Your task to perform on an android device: How much does a 2 bedroom apartment rent for in Houston? Image 0: 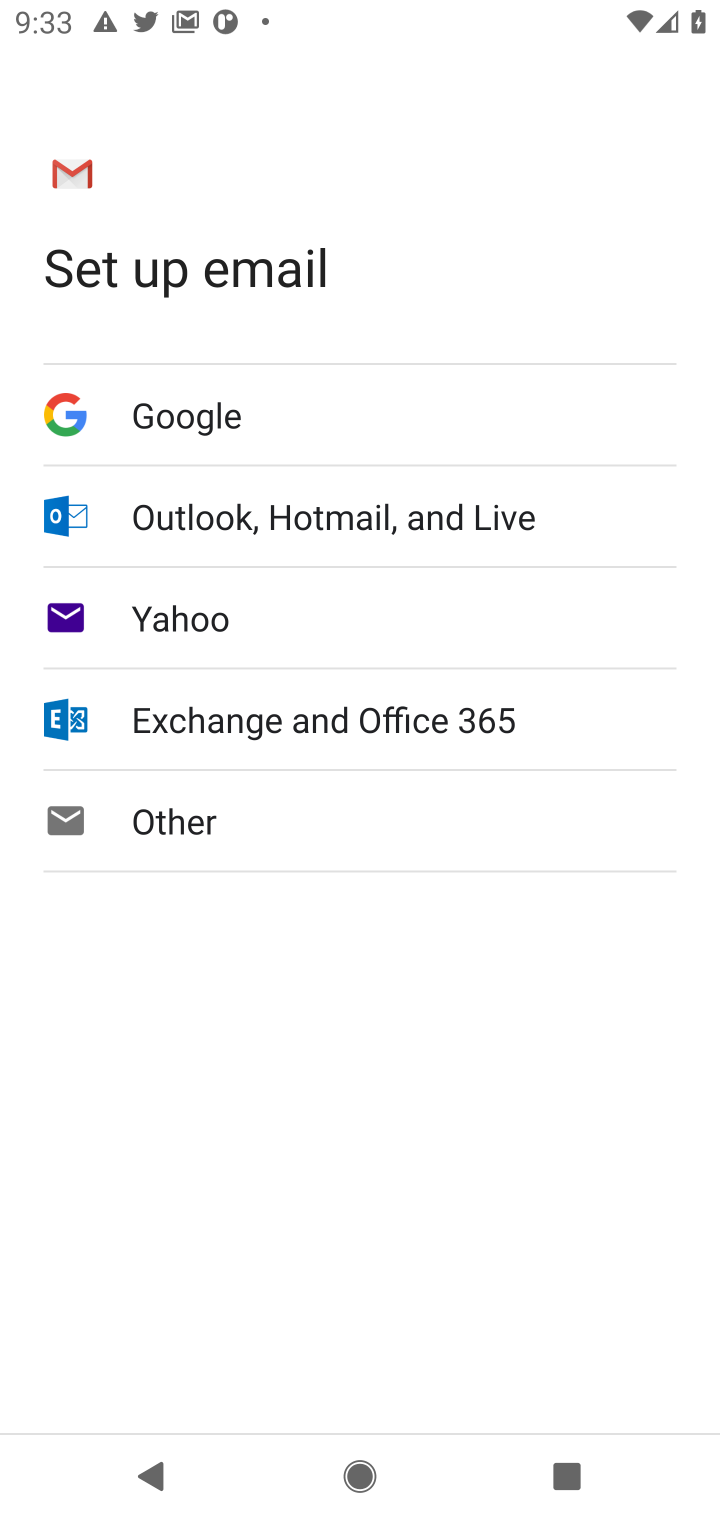
Step 0: press home button
Your task to perform on an android device: How much does a 2 bedroom apartment rent for in Houston? Image 1: 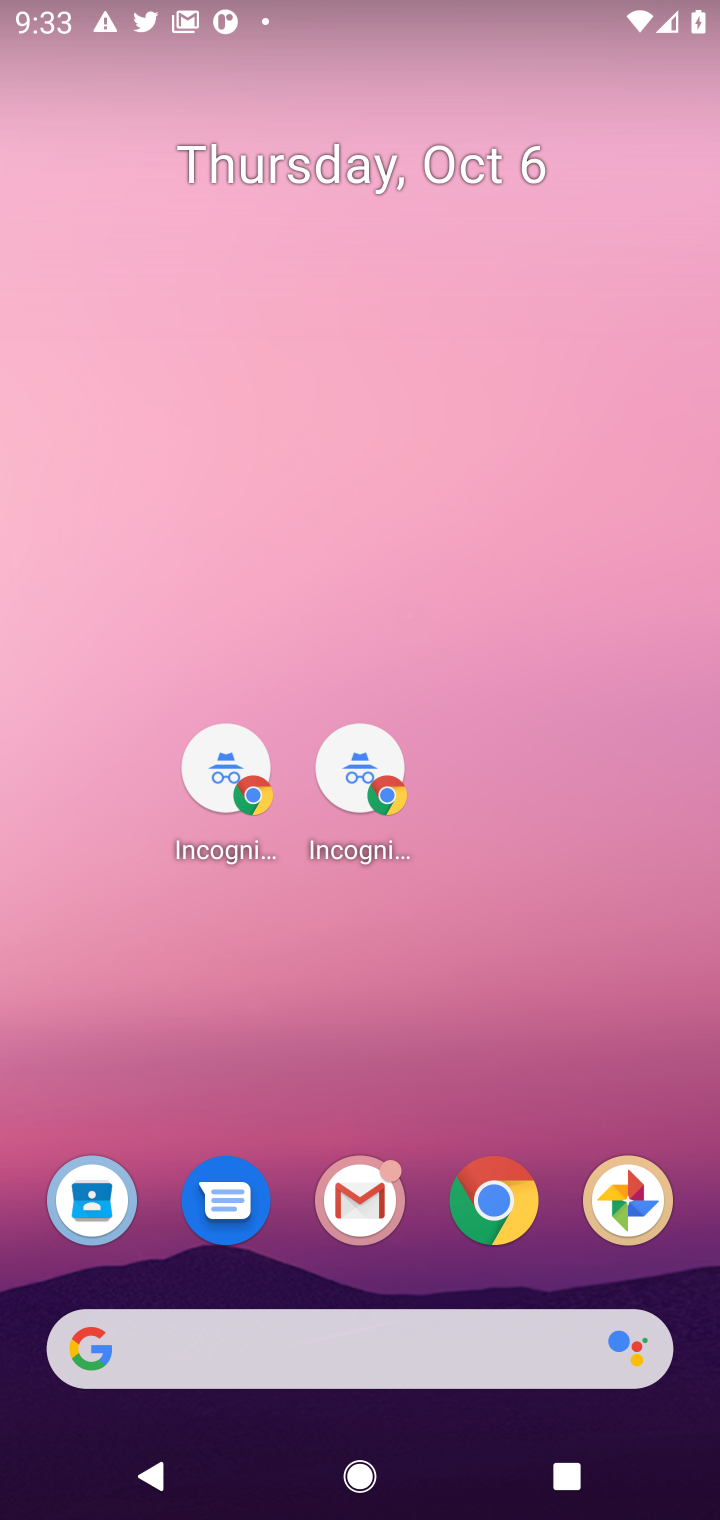
Step 1: press home button
Your task to perform on an android device: How much does a 2 bedroom apartment rent for in Houston? Image 2: 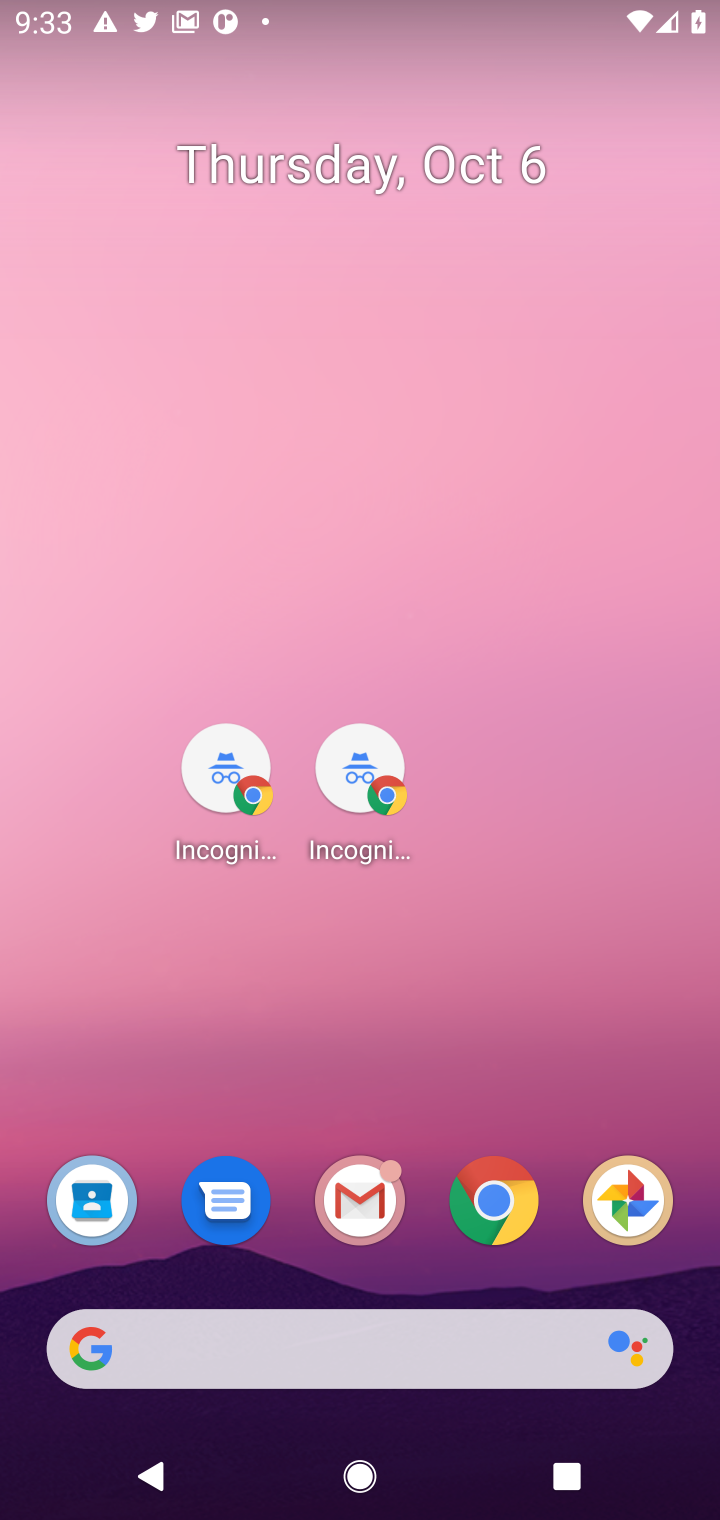
Step 2: press back button
Your task to perform on an android device: How much does a 2 bedroom apartment rent for in Houston? Image 3: 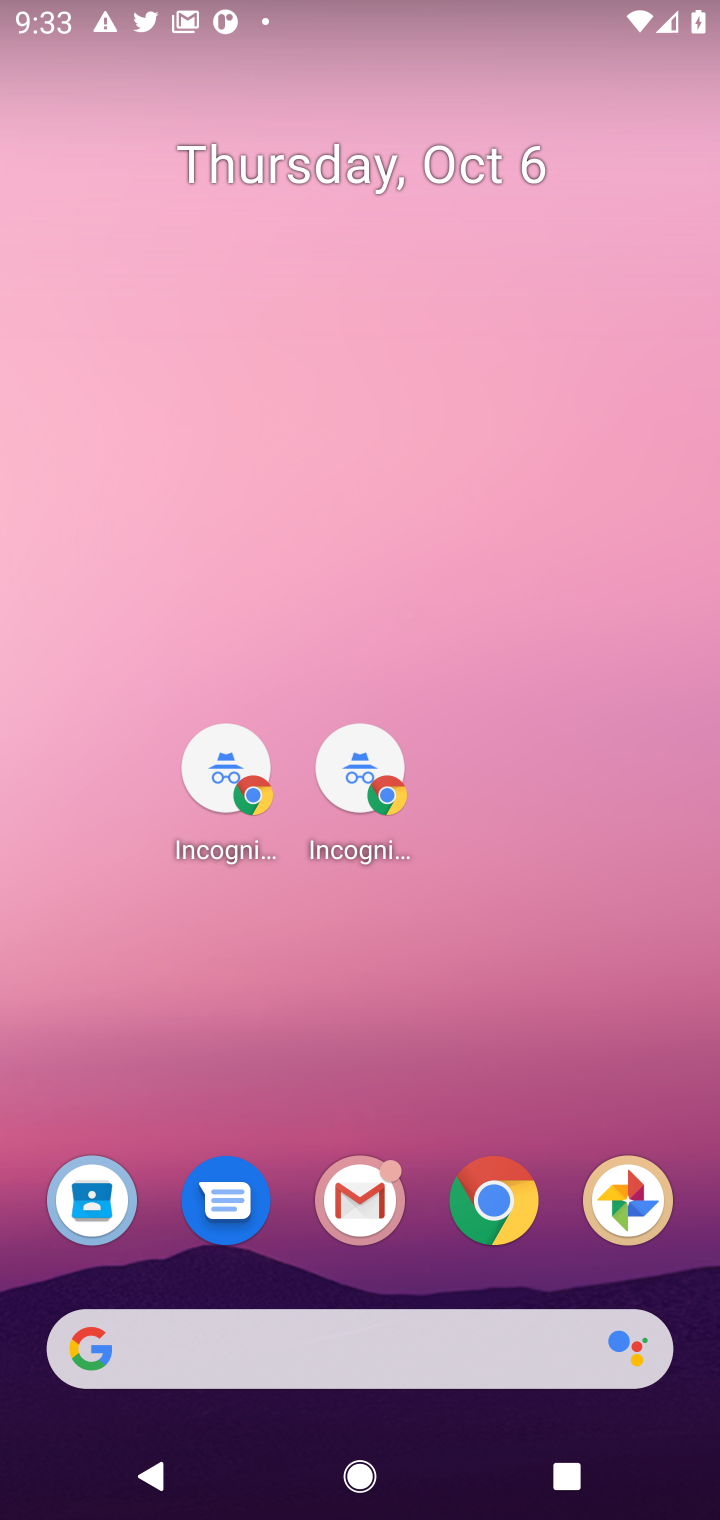
Step 3: press back button
Your task to perform on an android device: How much does a 2 bedroom apartment rent for in Houston? Image 4: 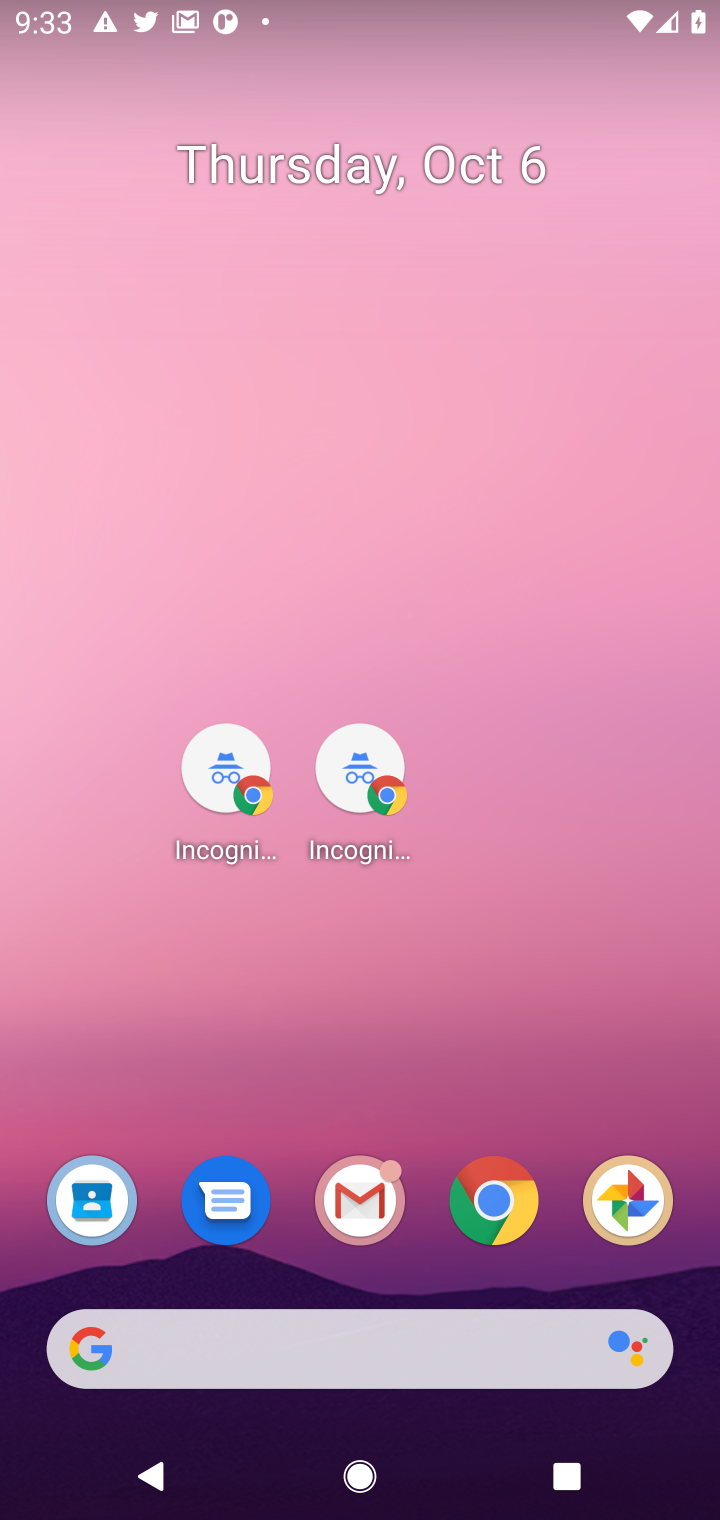
Step 4: press home button
Your task to perform on an android device: How much does a 2 bedroom apartment rent for in Houston? Image 5: 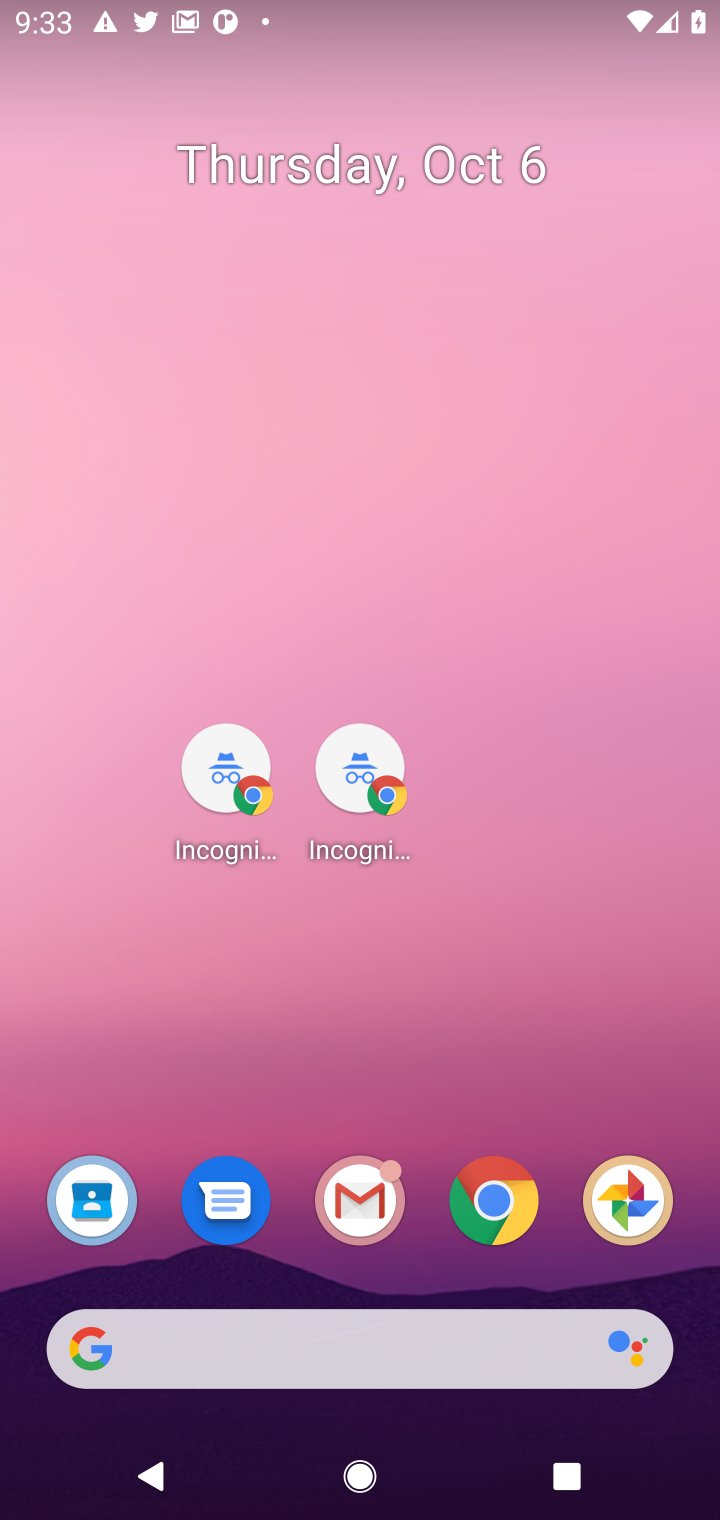
Step 5: press home button
Your task to perform on an android device: How much does a 2 bedroom apartment rent for in Houston? Image 6: 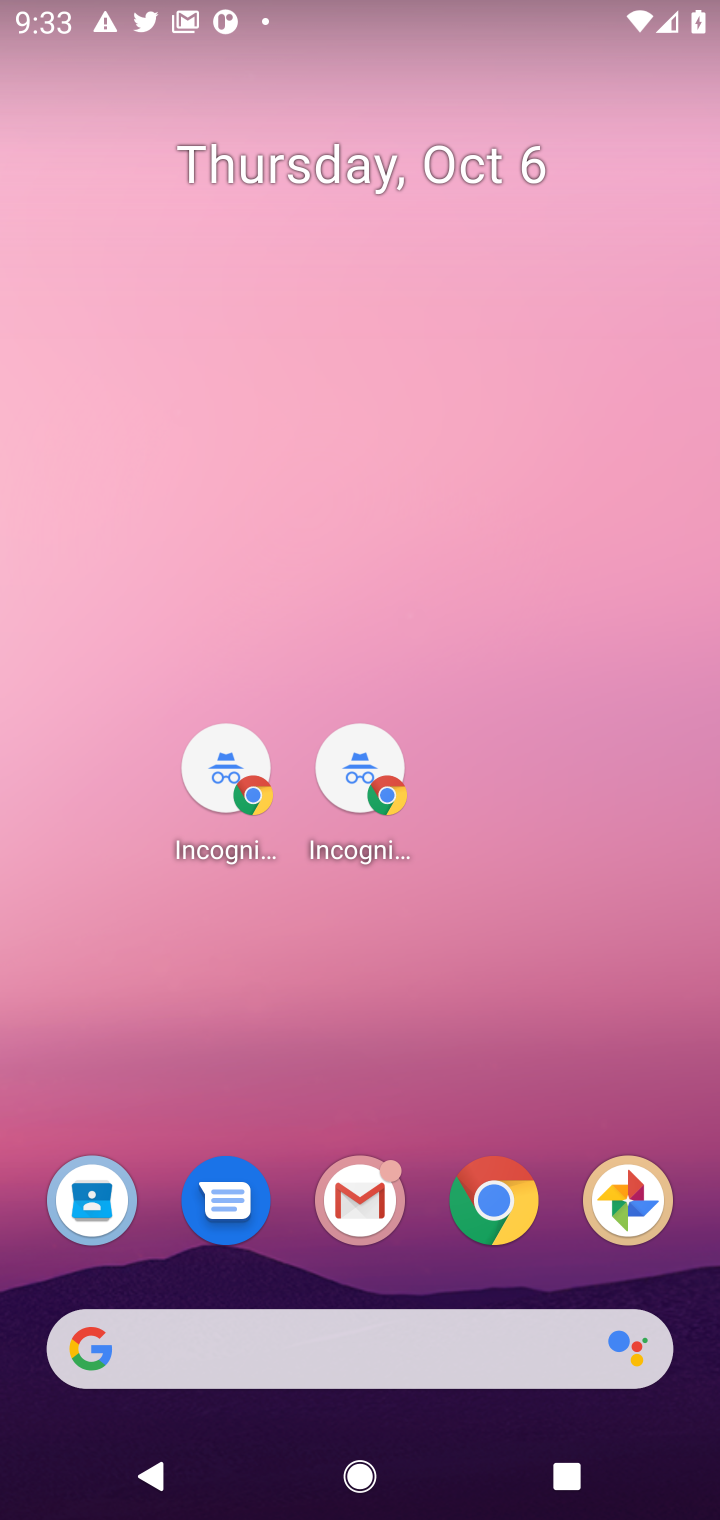
Step 6: click (486, 1190)
Your task to perform on an android device: How much does a 2 bedroom apartment rent for in Houston? Image 7: 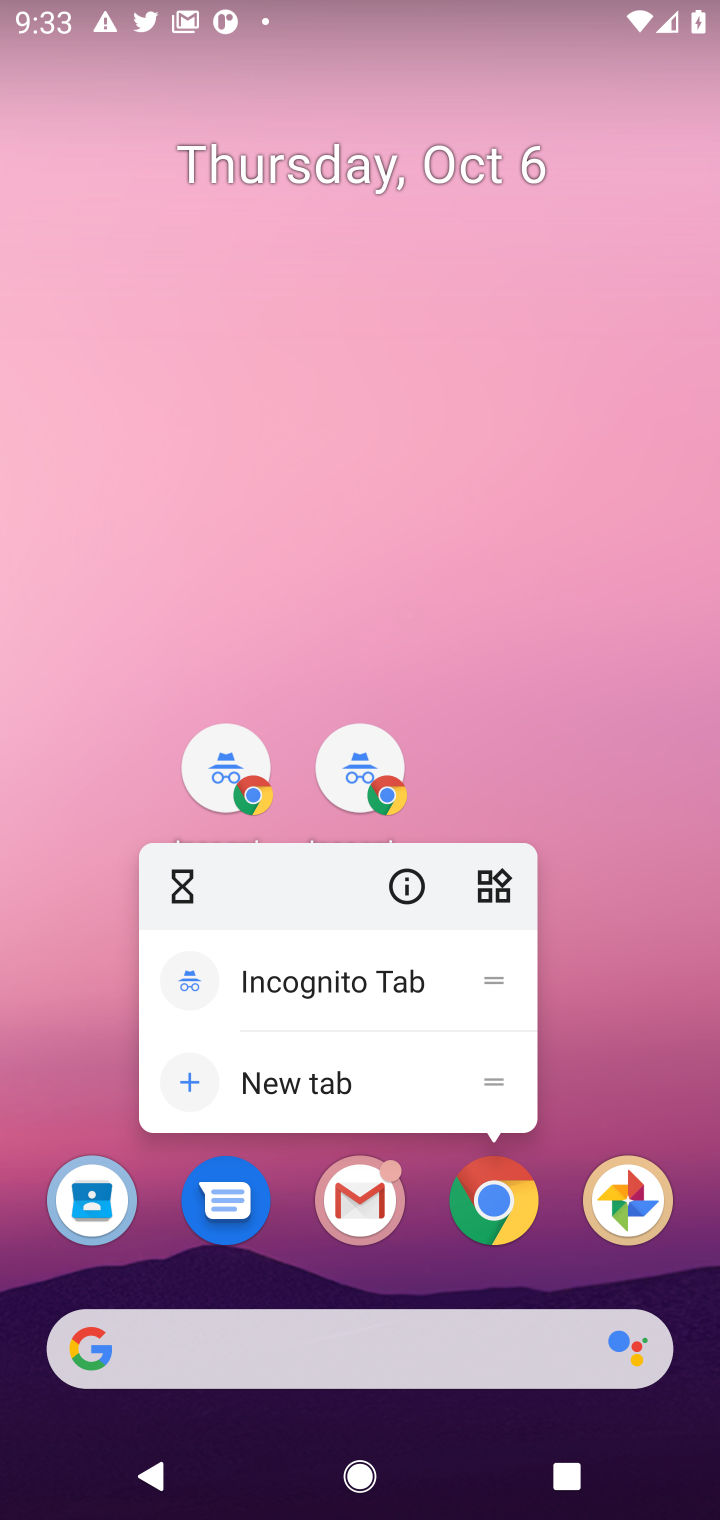
Step 7: press back button
Your task to perform on an android device: How much does a 2 bedroom apartment rent for in Houston? Image 8: 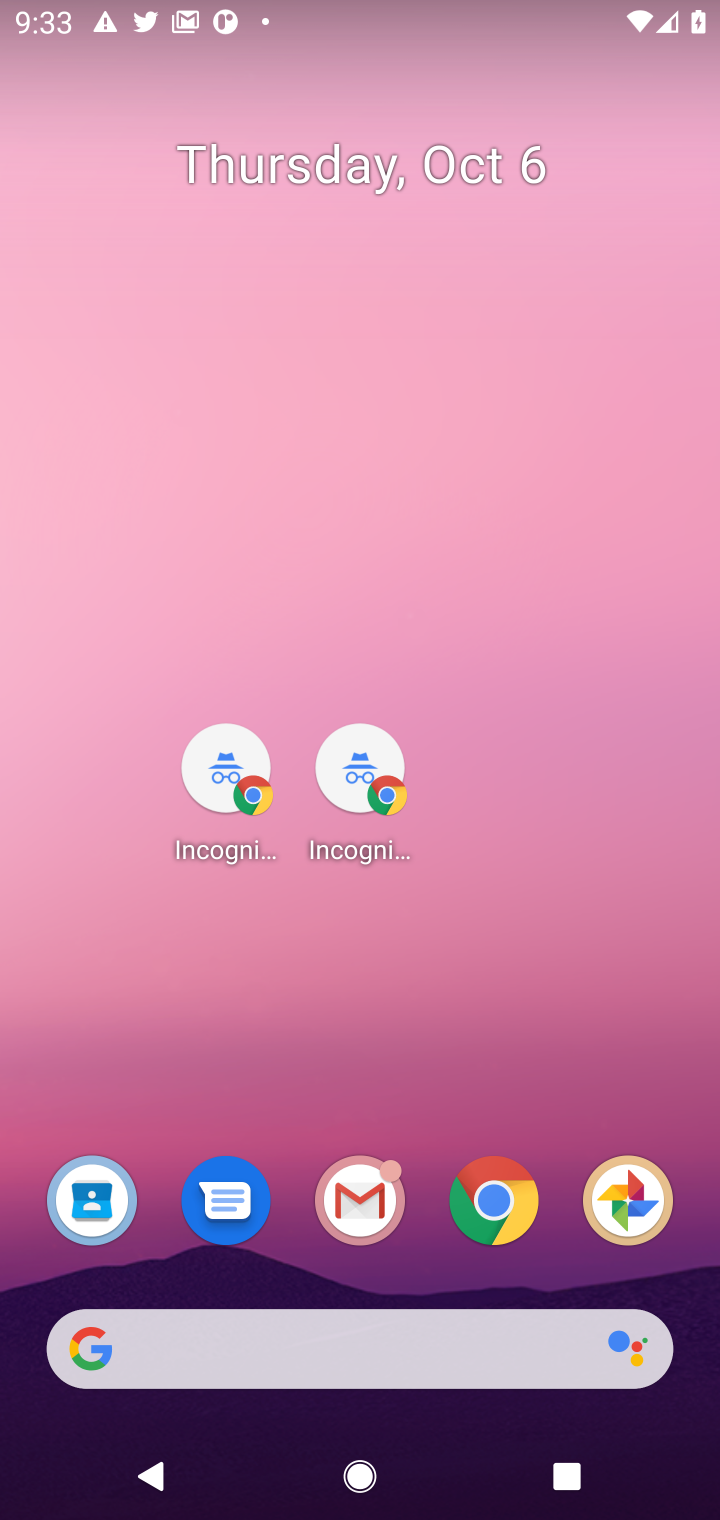
Step 8: press home button
Your task to perform on an android device: How much does a 2 bedroom apartment rent for in Houston? Image 9: 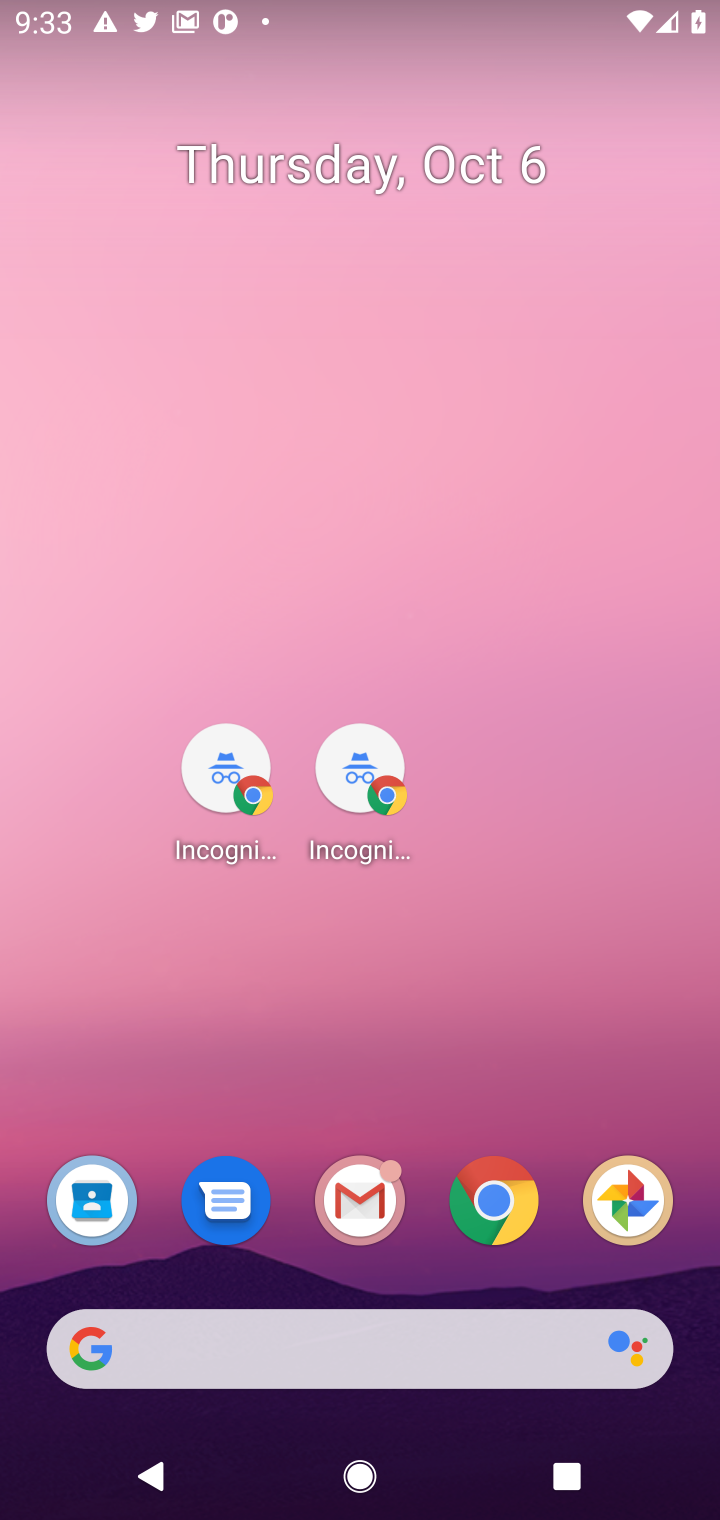
Step 9: press home button
Your task to perform on an android device: How much does a 2 bedroom apartment rent for in Houston? Image 10: 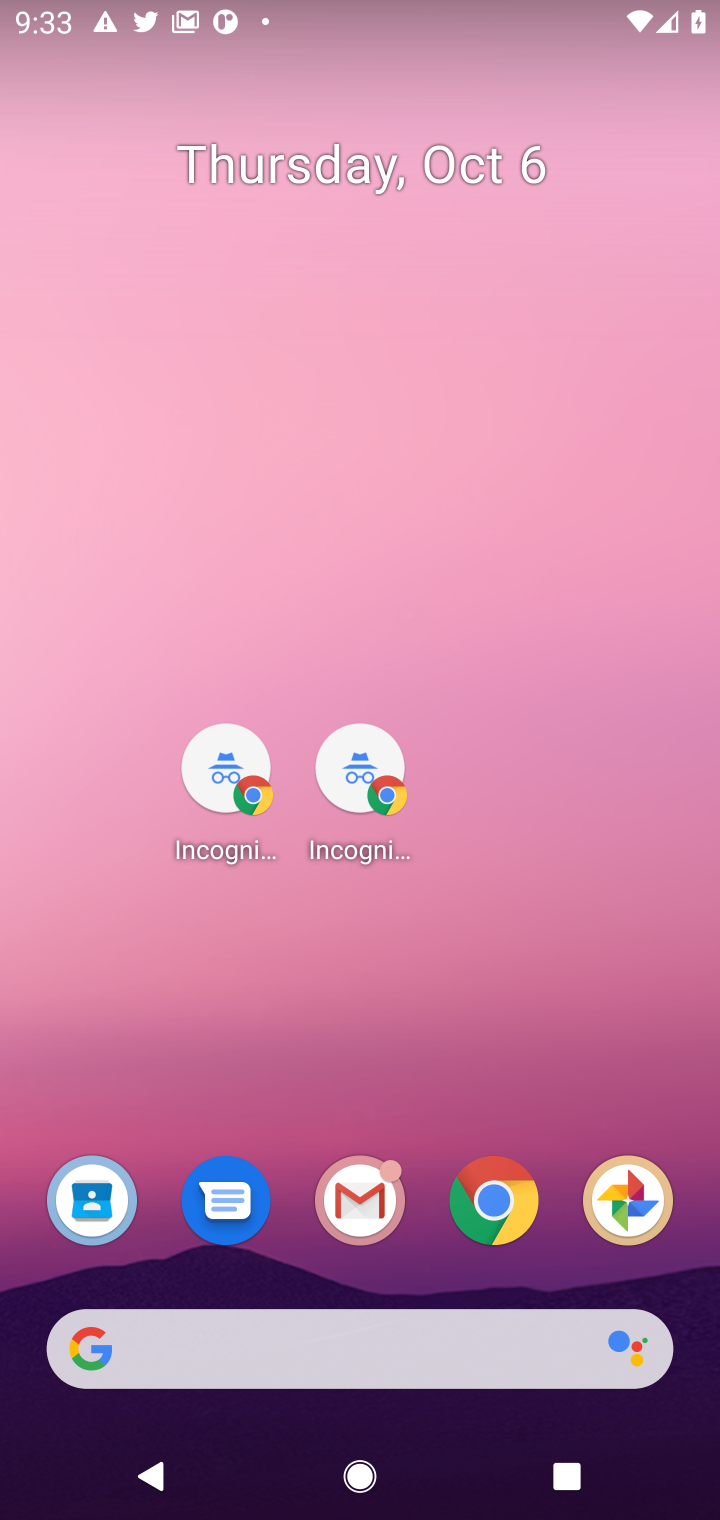
Step 10: click (501, 1193)
Your task to perform on an android device: How much does a 2 bedroom apartment rent for in Houston? Image 11: 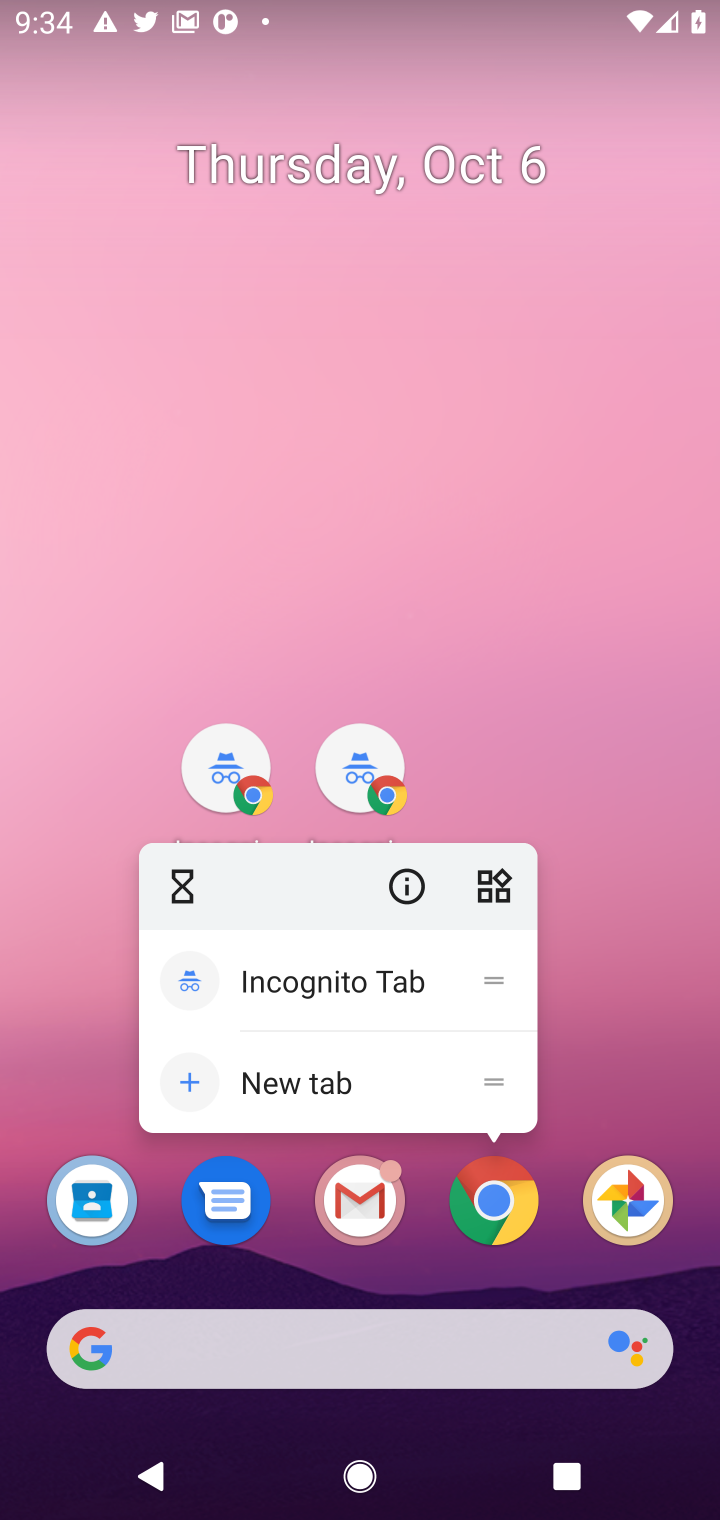
Step 11: press back button
Your task to perform on an android device: How much does a 2 bedroom apartment rent for in Houston? Image 12: 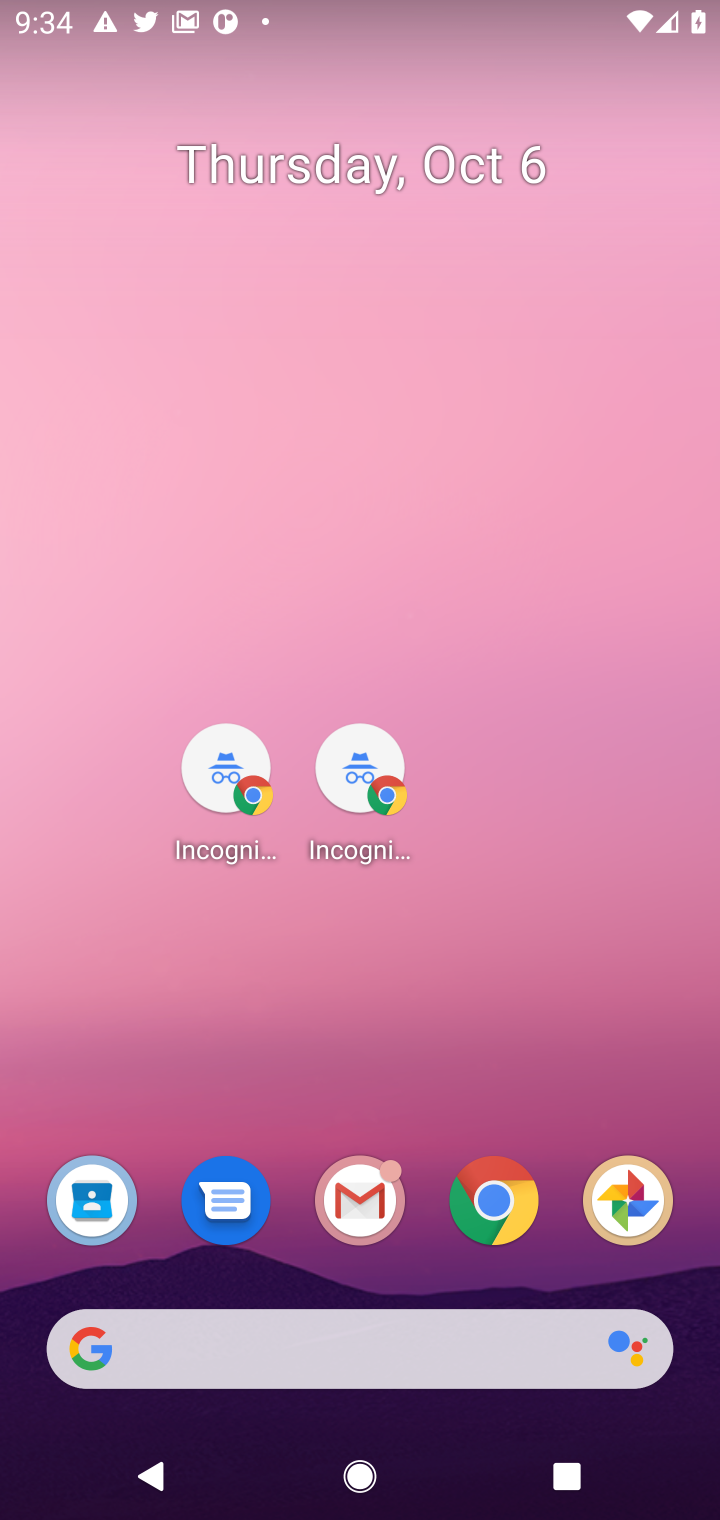
Step 12: press home button
Your task to perform on an android device: How much does a 2 bedroom apartment rent for in Houston? Image 13: 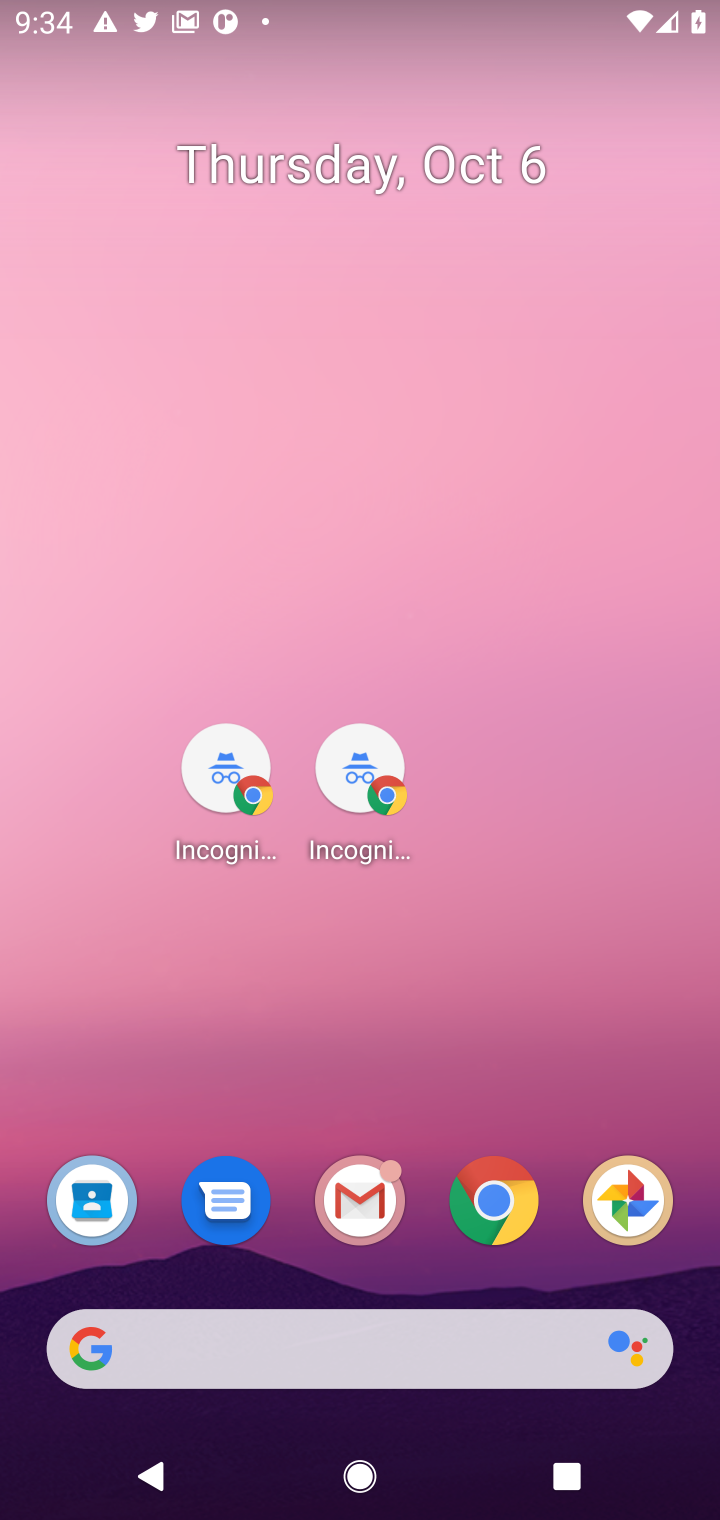
Step 13: click (500, 1183)
Your task to perform on an android device: How much does a 2 bedroom apartment rent for in Houston? Image 14: 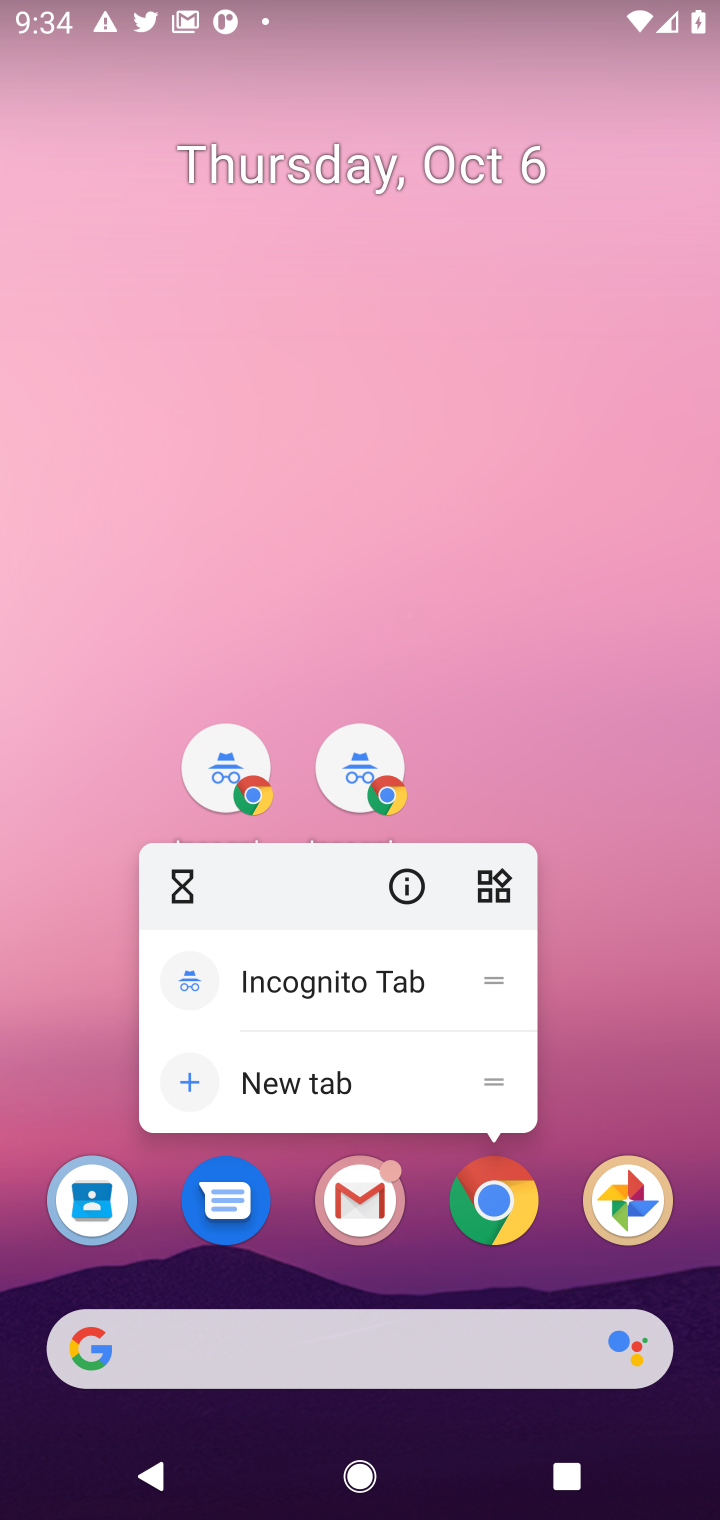
Step 14: press back button
Your task to perform on an android device: How much does a 2 bedroom apartment rent for in Houston? Image 15: 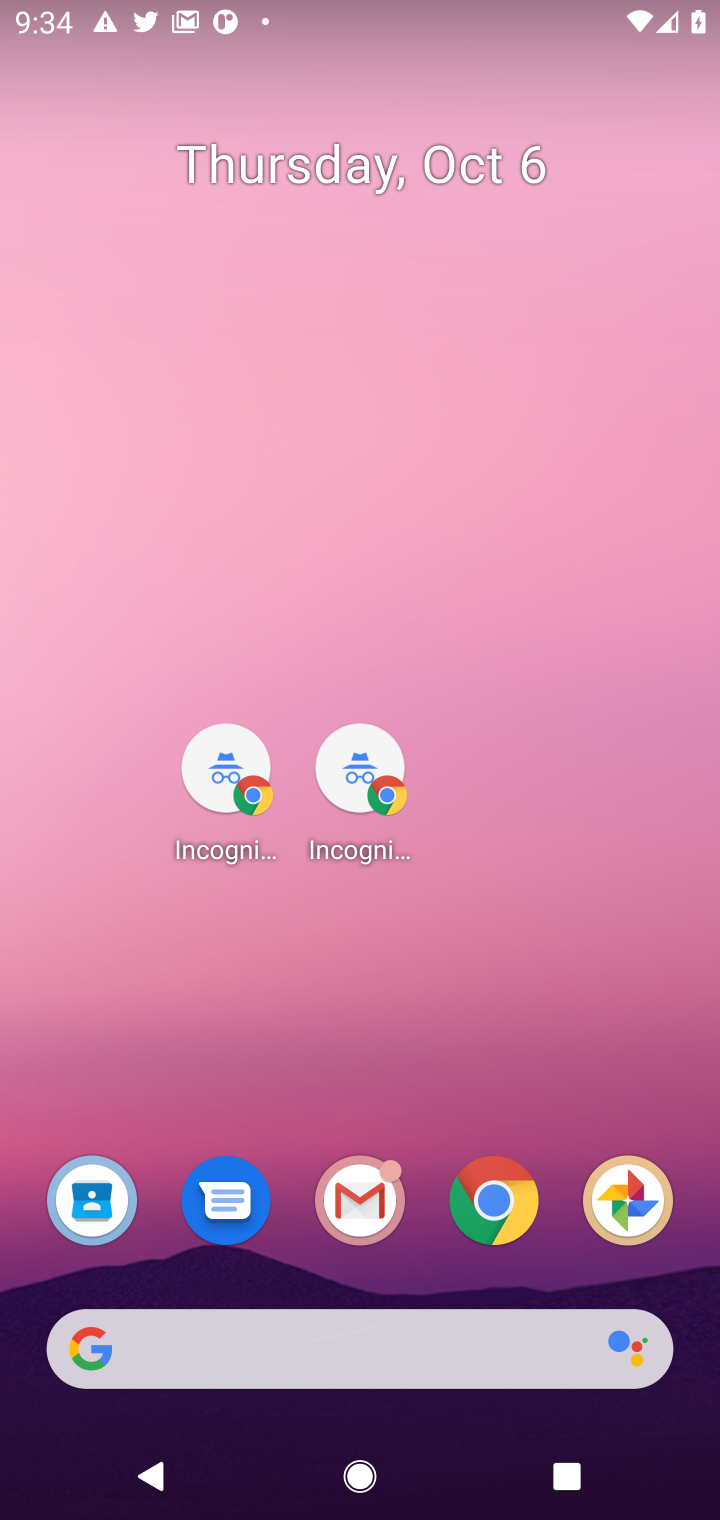
Step 15: press back button
Your task to perform on an android device: How much does a 2 bedroom apartment rent for in Houston? Image 16: 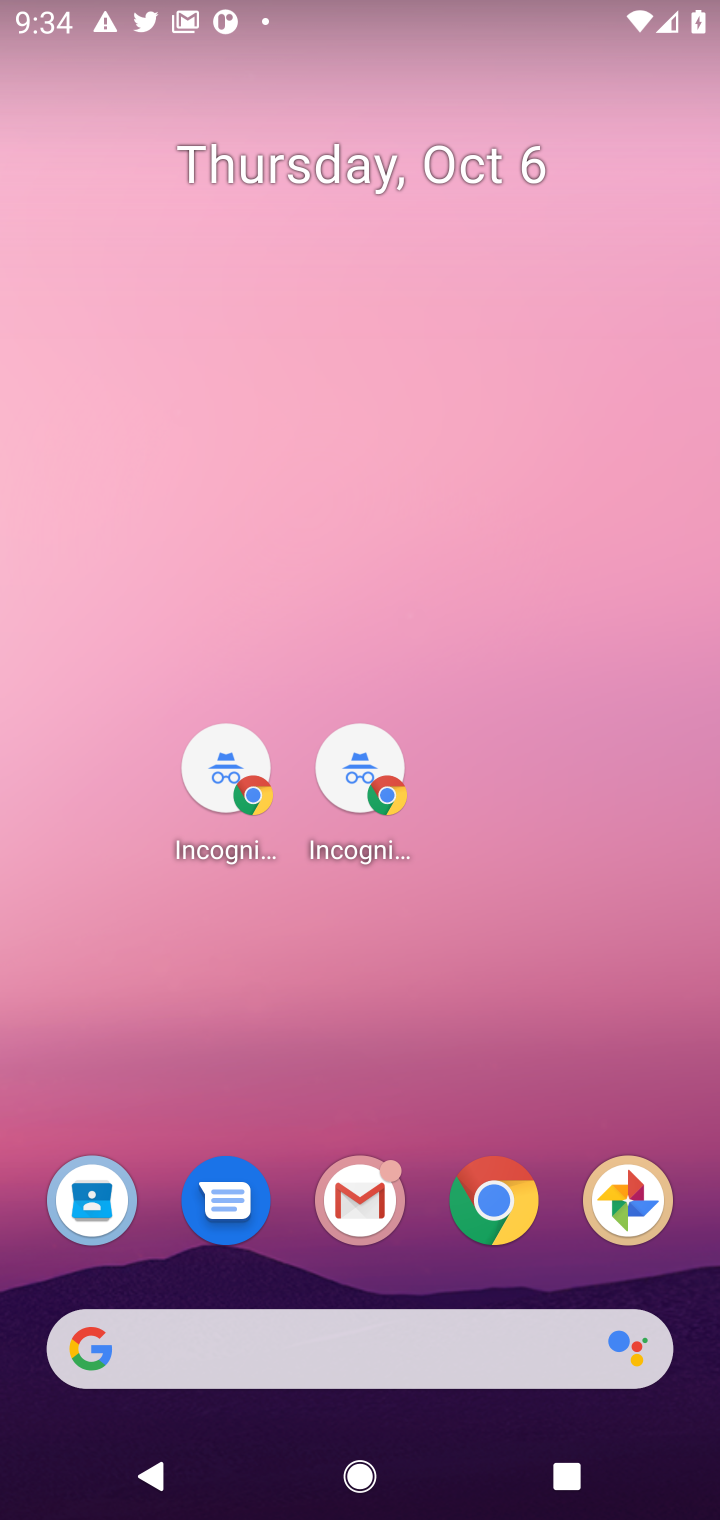
Step 16: press home button
Your task to perform on an android device: How much does a 2 bedroom apartment rent for in Houston? Image 17: 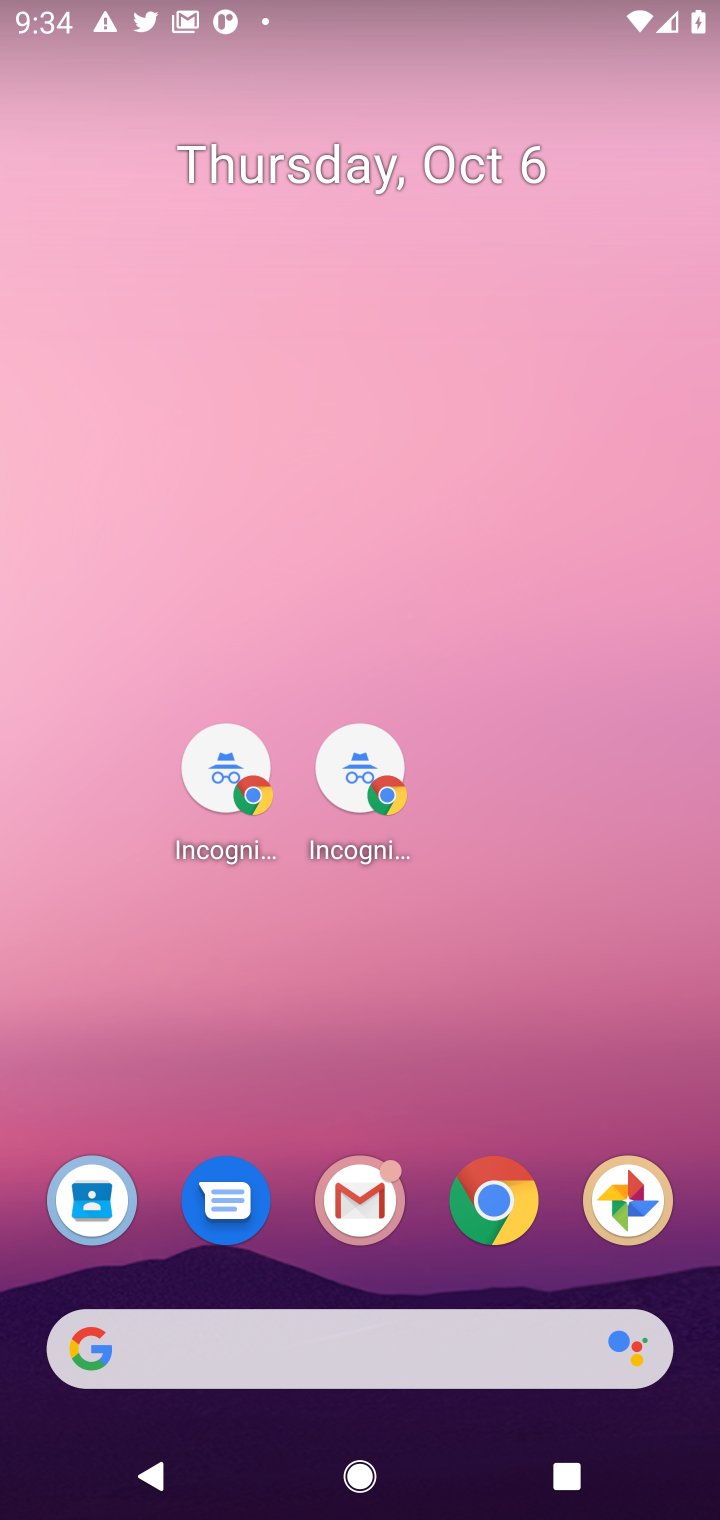
Step 17: click (484, 1178)
Your task to perform on an android device: How much does a 2 bedroom apartment rent for in Houston? Image 18: 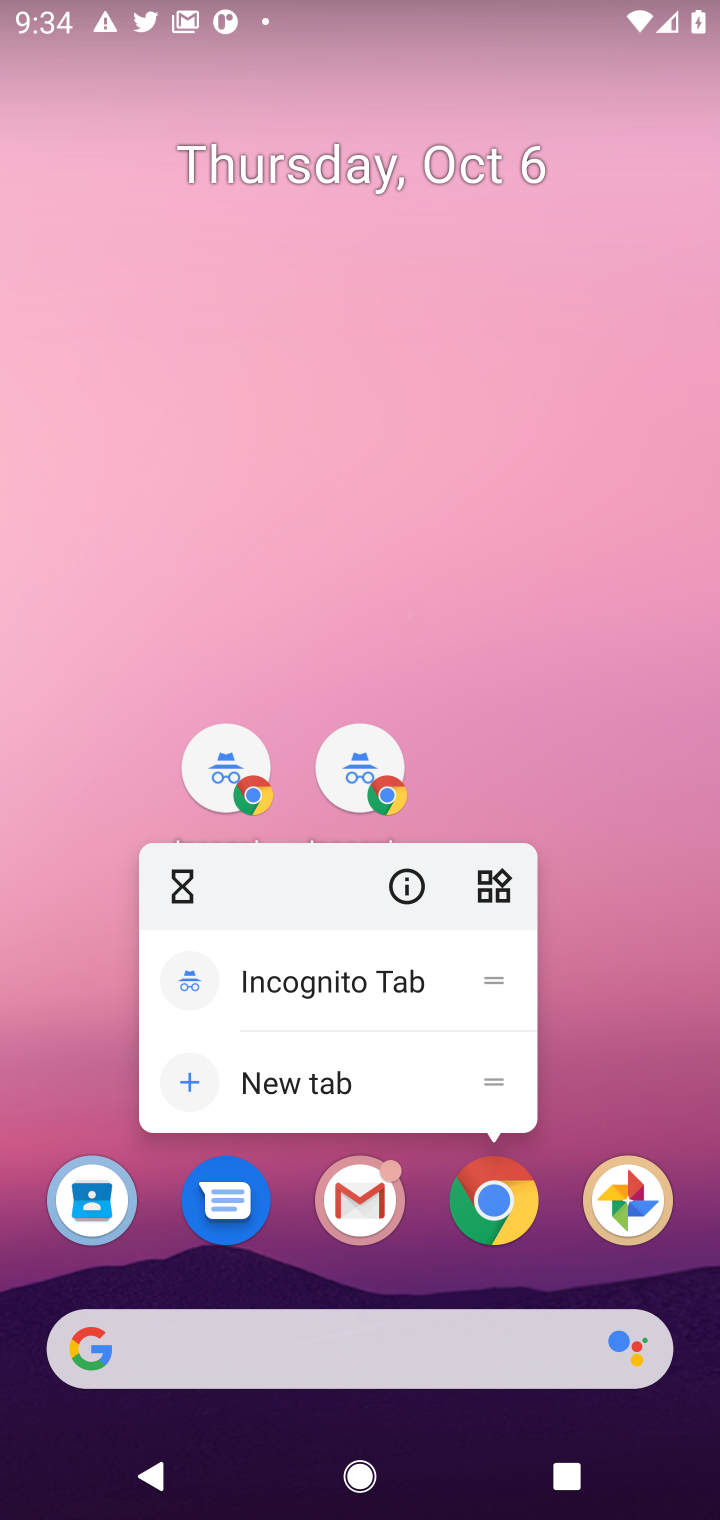
Step 18: press back button
Your task to perform on an android device: How much does a 2 bedroom apartment rent for in Houston? Image 19: 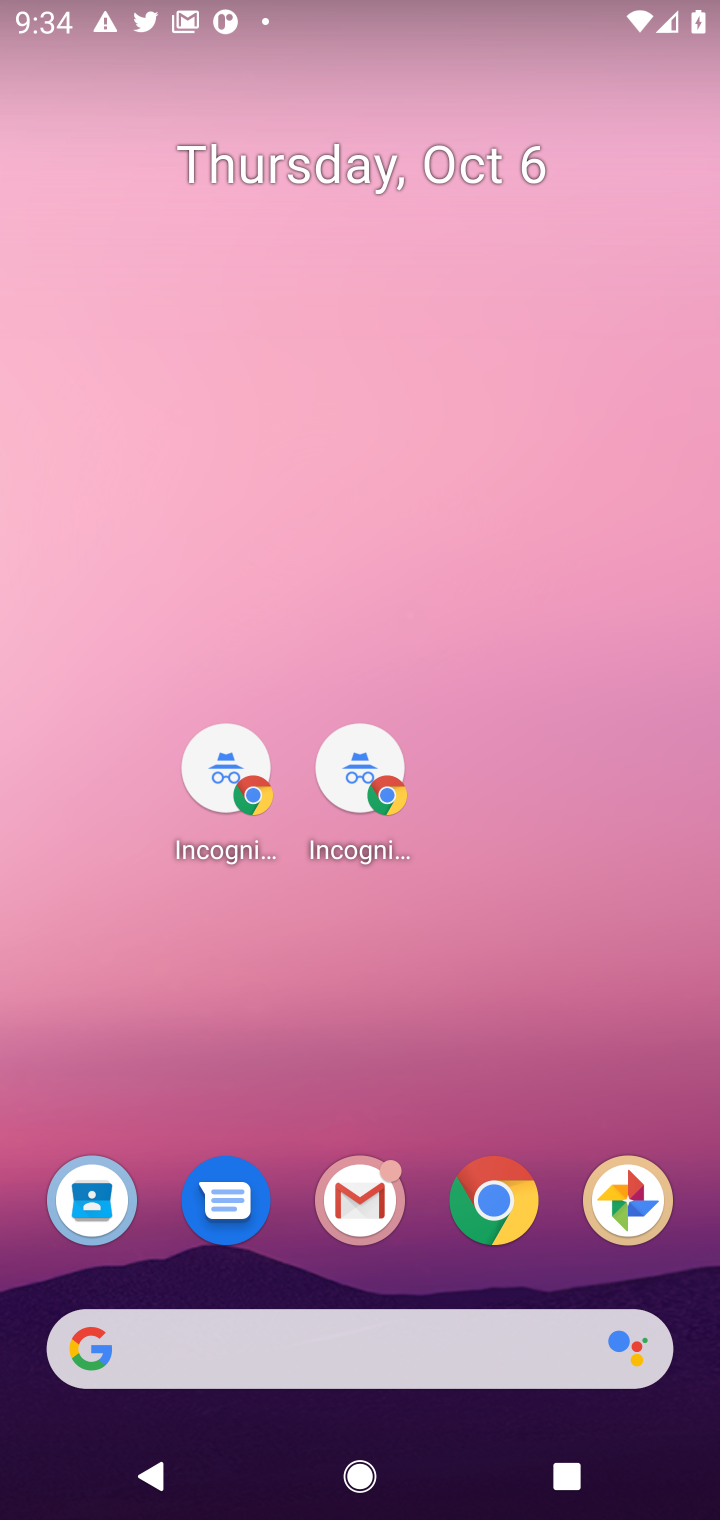
Step 19: click (482, 1190)
Your task to perform on an android device: How much does a 2 bedroom apartment rent for in Houston? Image 20: 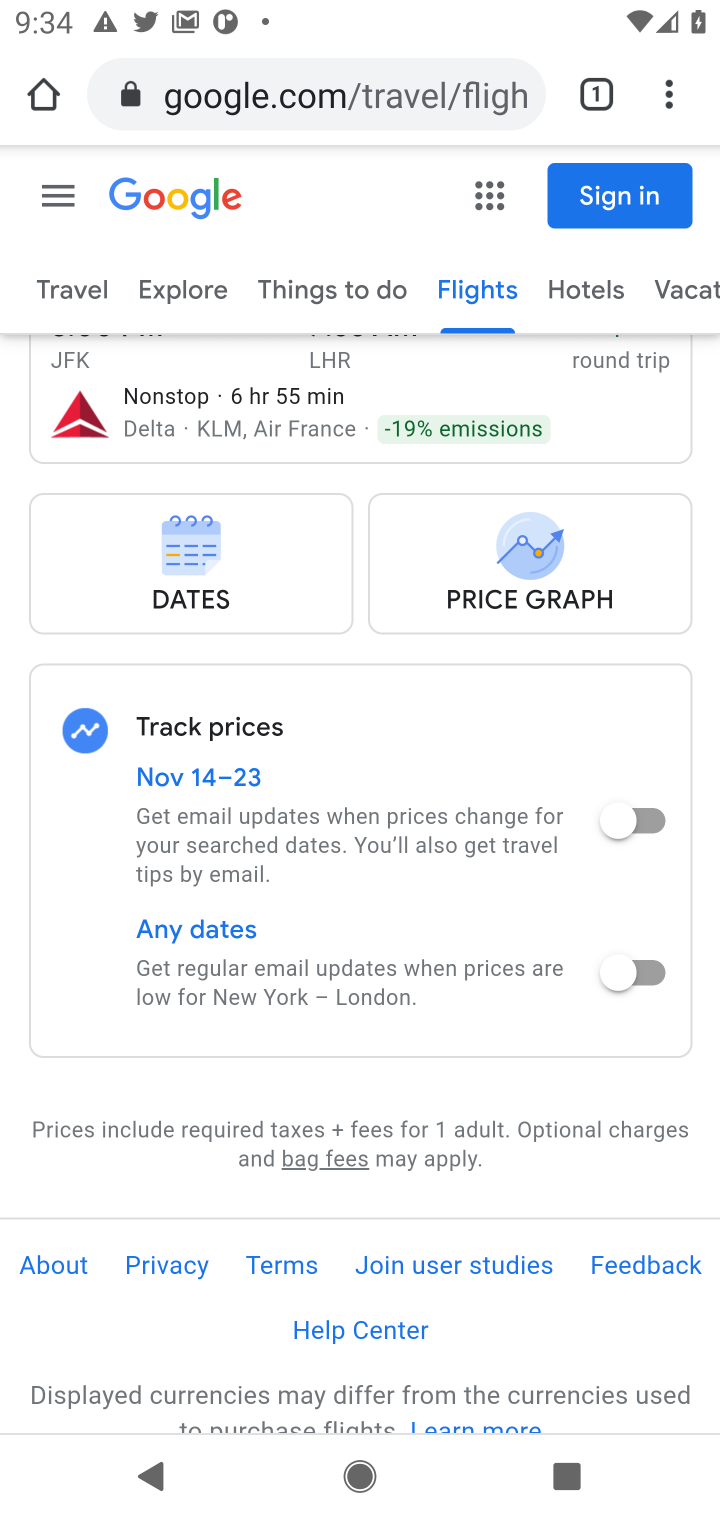
Step 20: click (491, 87)
Your task to perform on an android device: How much does a 2 bedroom apartment rent for in Houston? Image 21: 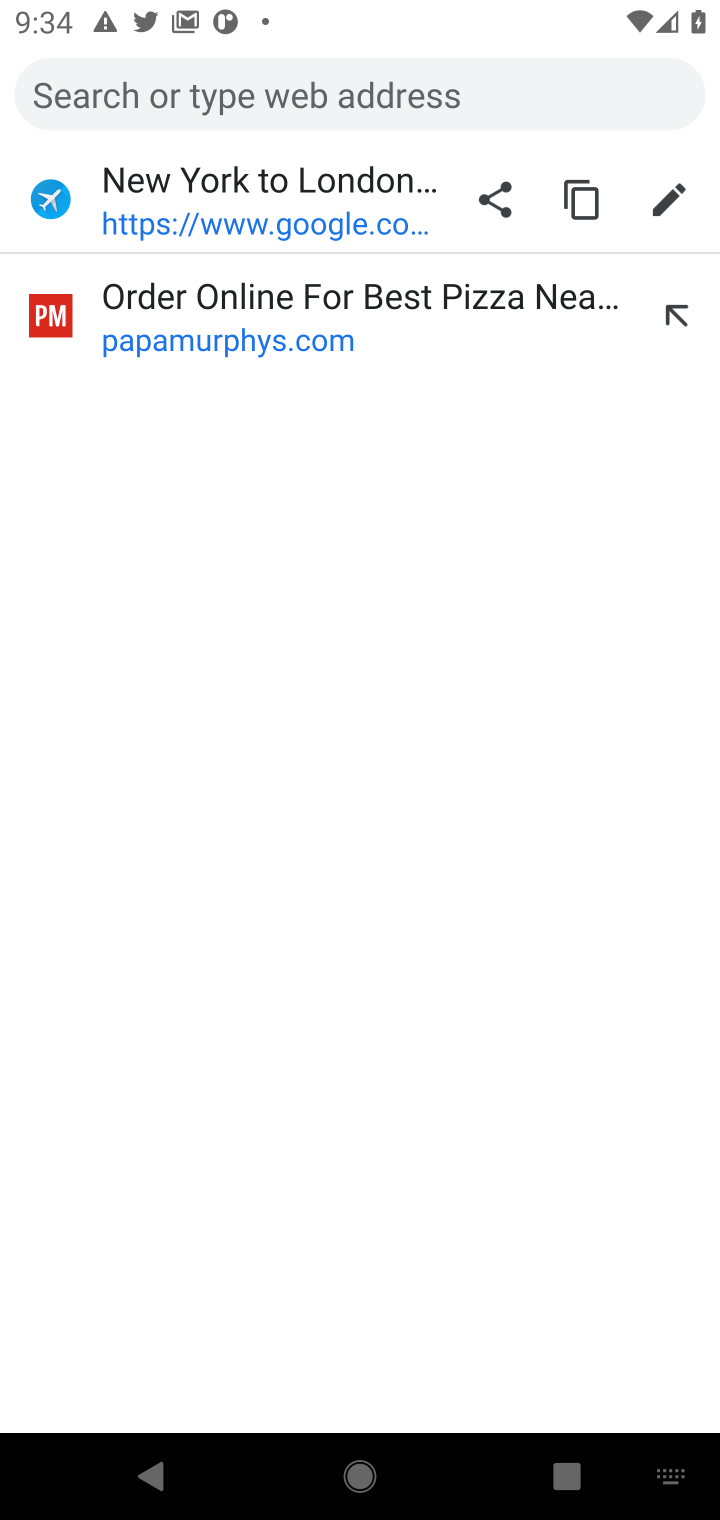
Step 21: type "2 bed room apartment rent in houston"
Your task to perform on an android device: How much does a 2 bedroom apartment rent for in Houston? Image 22: 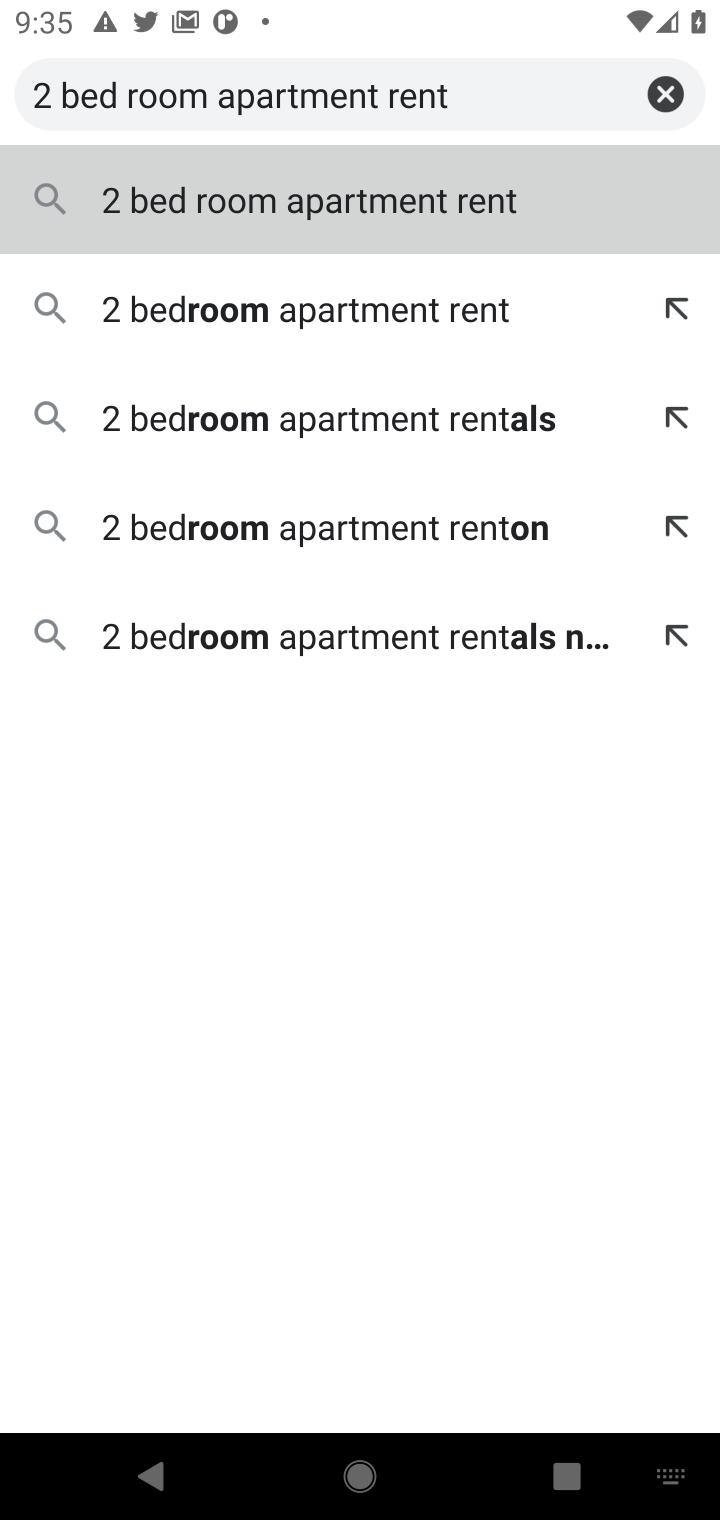
Step 22: type ""
Your task to perform on an android device: How much does a 2 bedroom apartment rent for in Houston? Image 23: 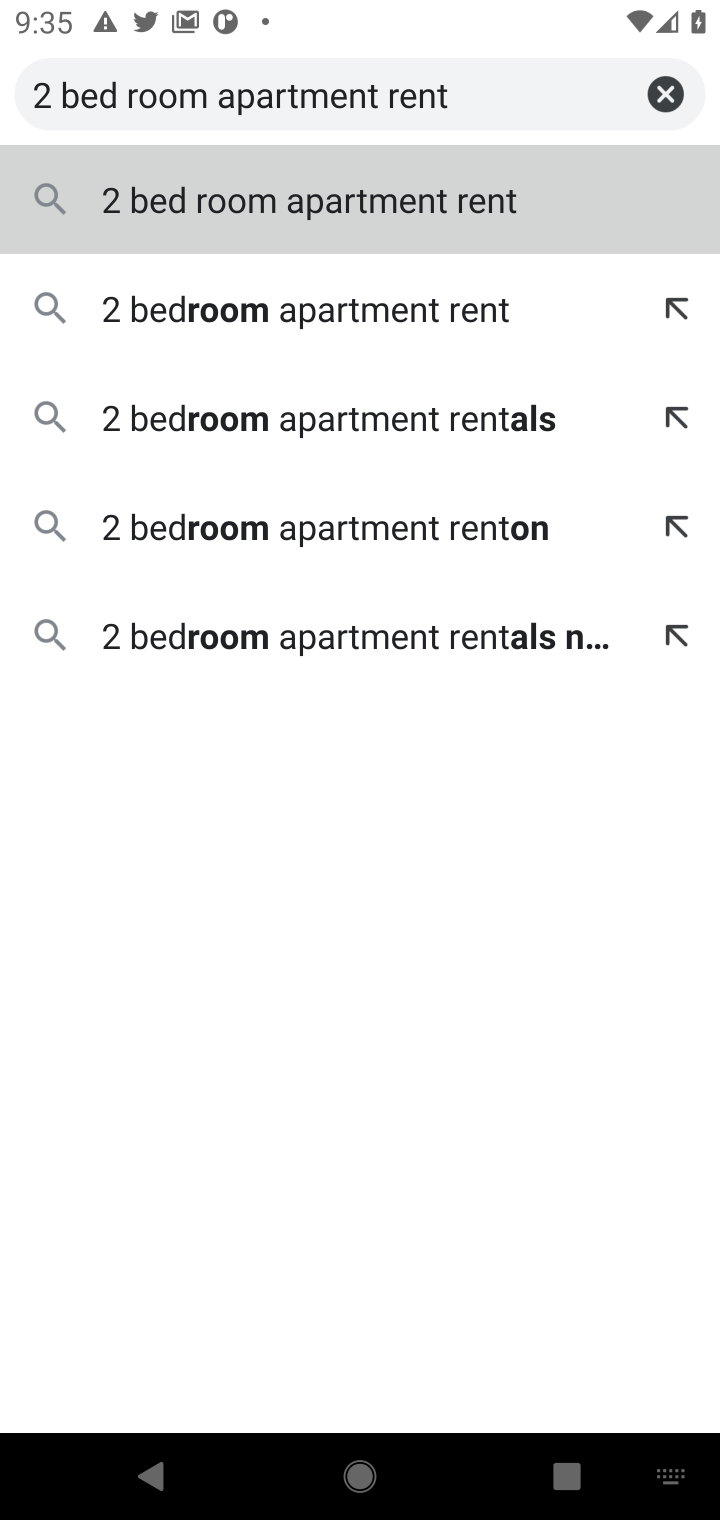
Step 23: type ""
Your task to perform on an android device: How much does a 2 bedroom apartment rent for in Houston? Image 24: 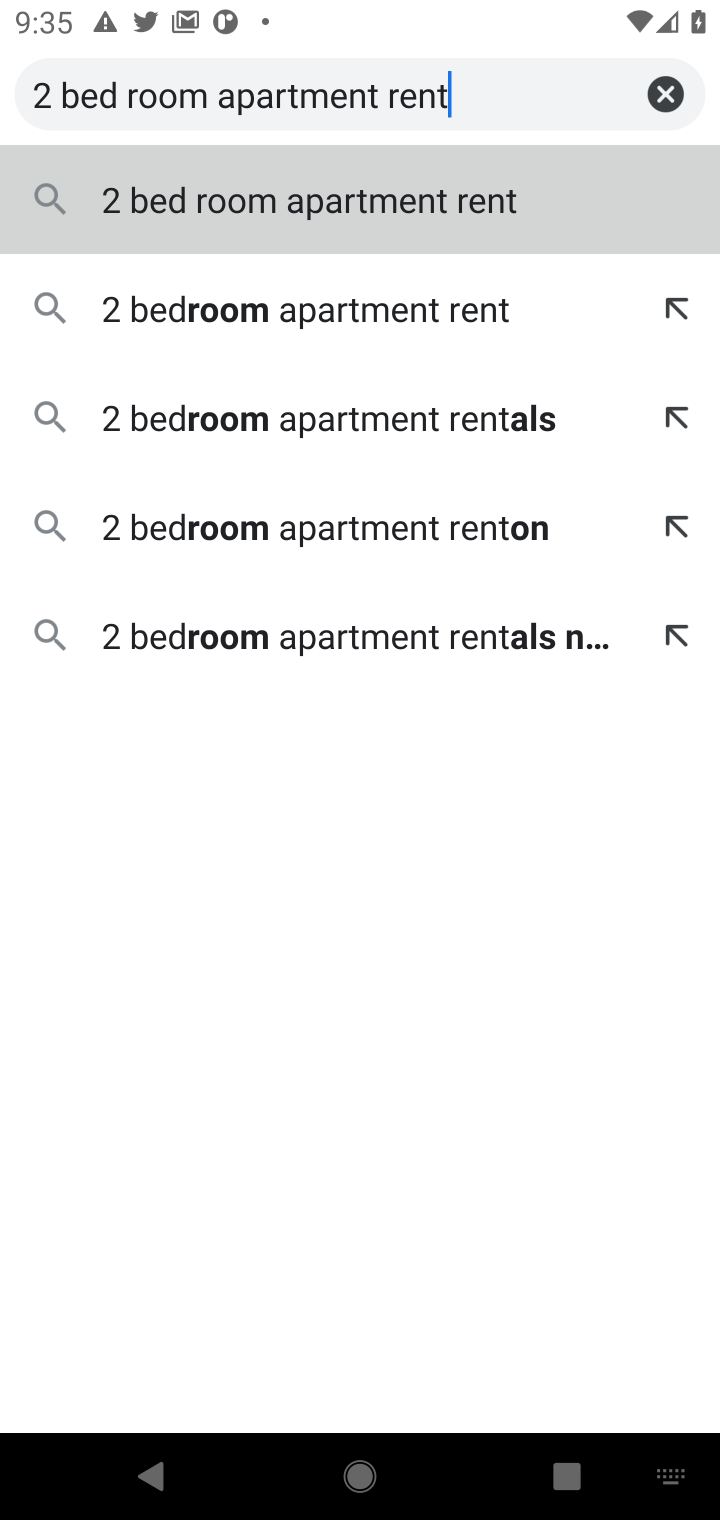
Step 24: type "in houston"
Your task to perform on an android device: How much does a 2 bedroom apartment rent for in Houston? Image 25: 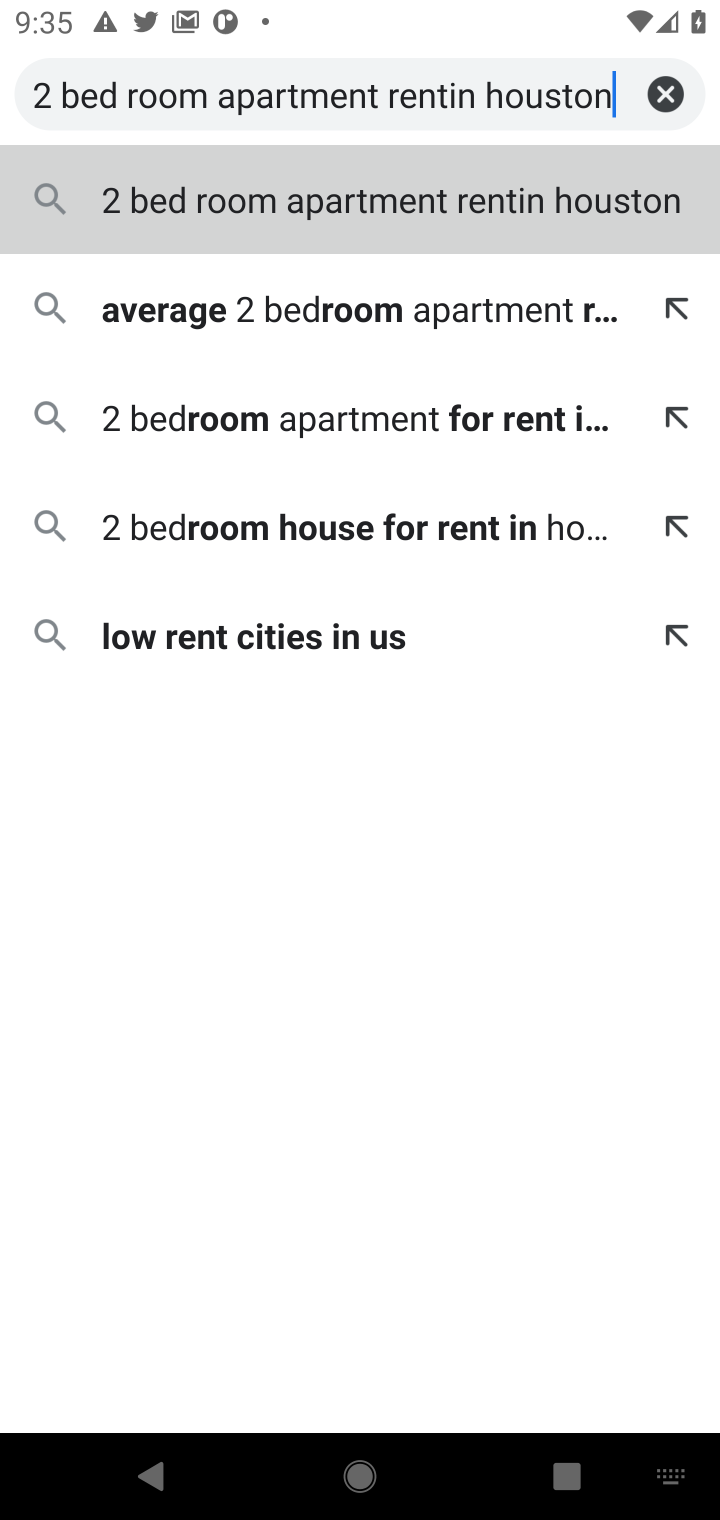
Step 25: click (354, 294)
Your task to perform on an android device: How much does a 2 bedroom apartment rent for in Houston? Image 26: 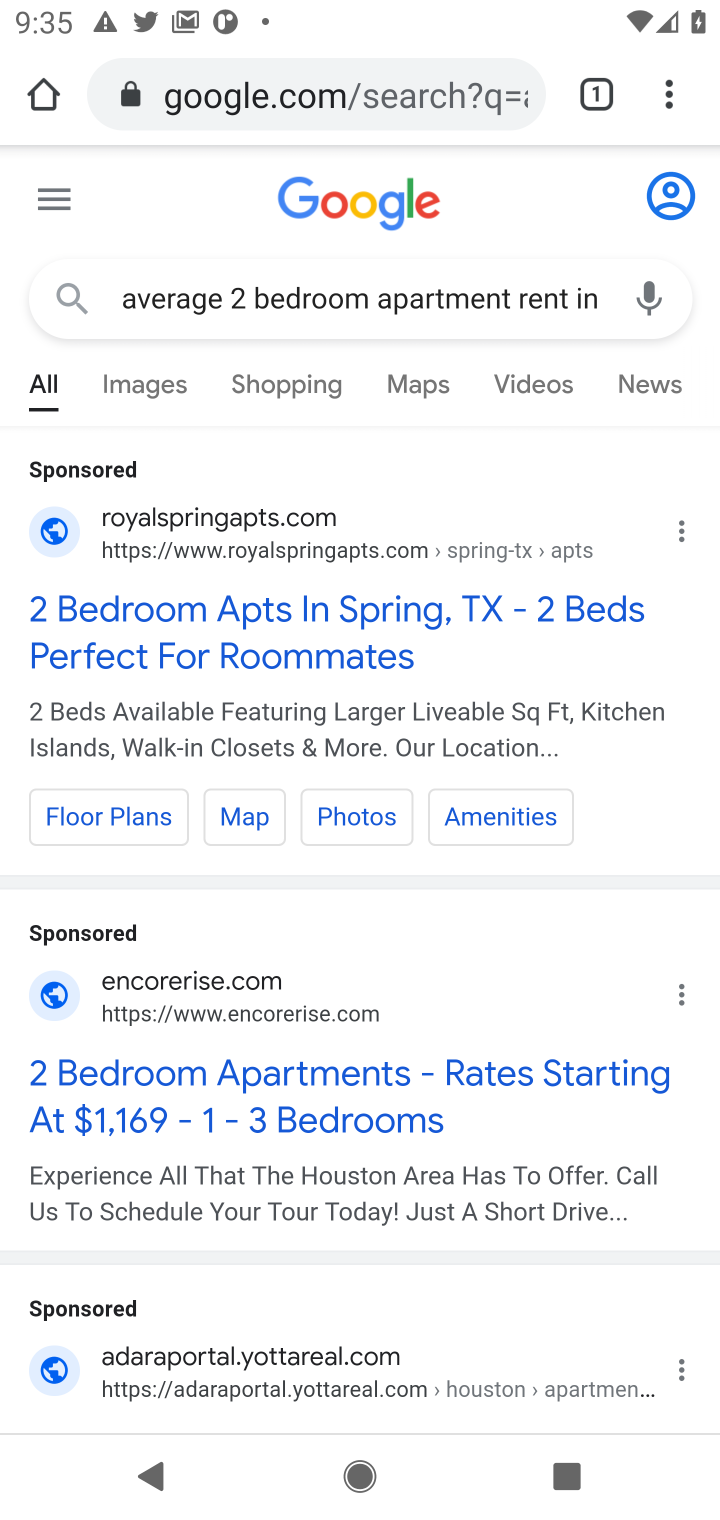
Step 26: drag from (527, 1121) to (541, 613)
Your task to perform on an android device: How much does a 2 bedroom apartment rent for in Houston? Image 27: 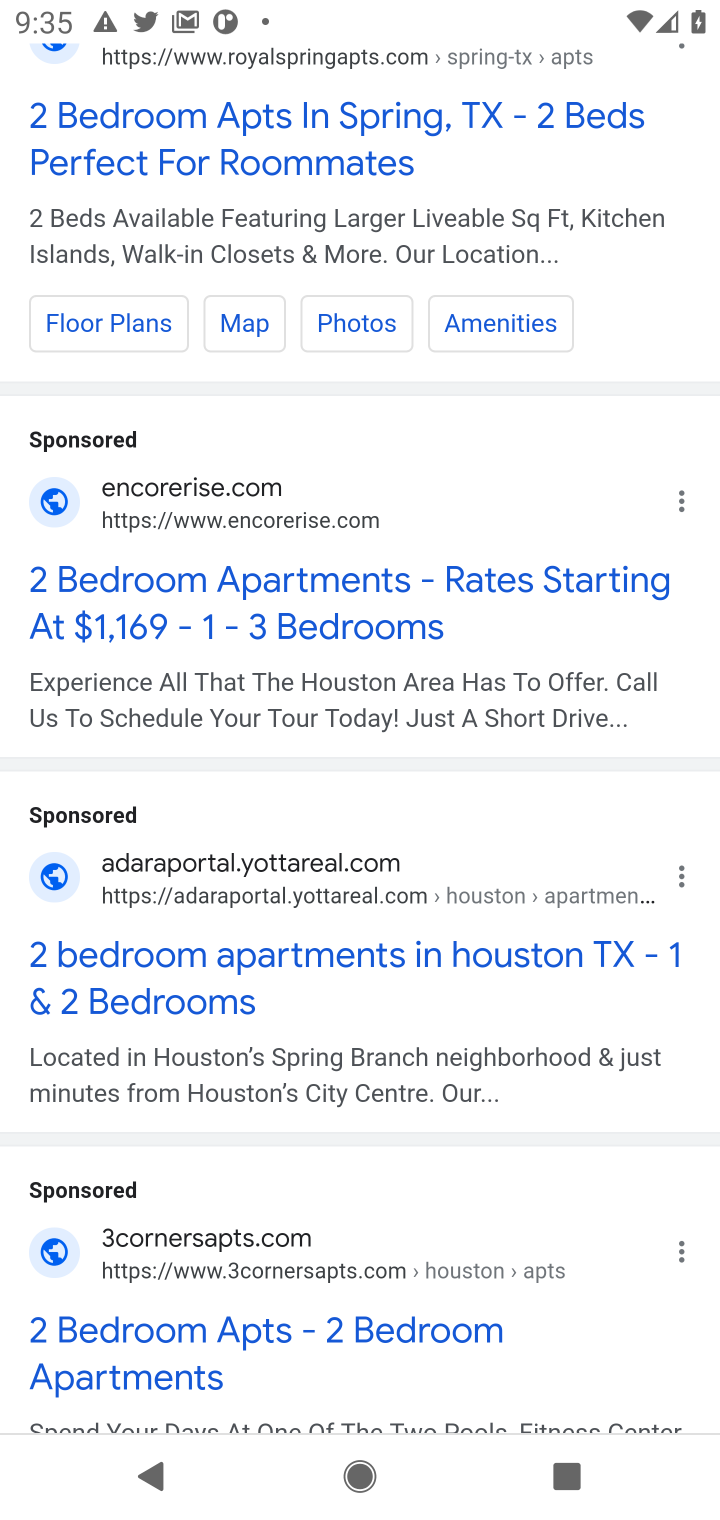
Step 27: click (256, 955)
Your task to perform on an android device: How much does a 2 bedroom apartment rent for in Houston? Image 28: 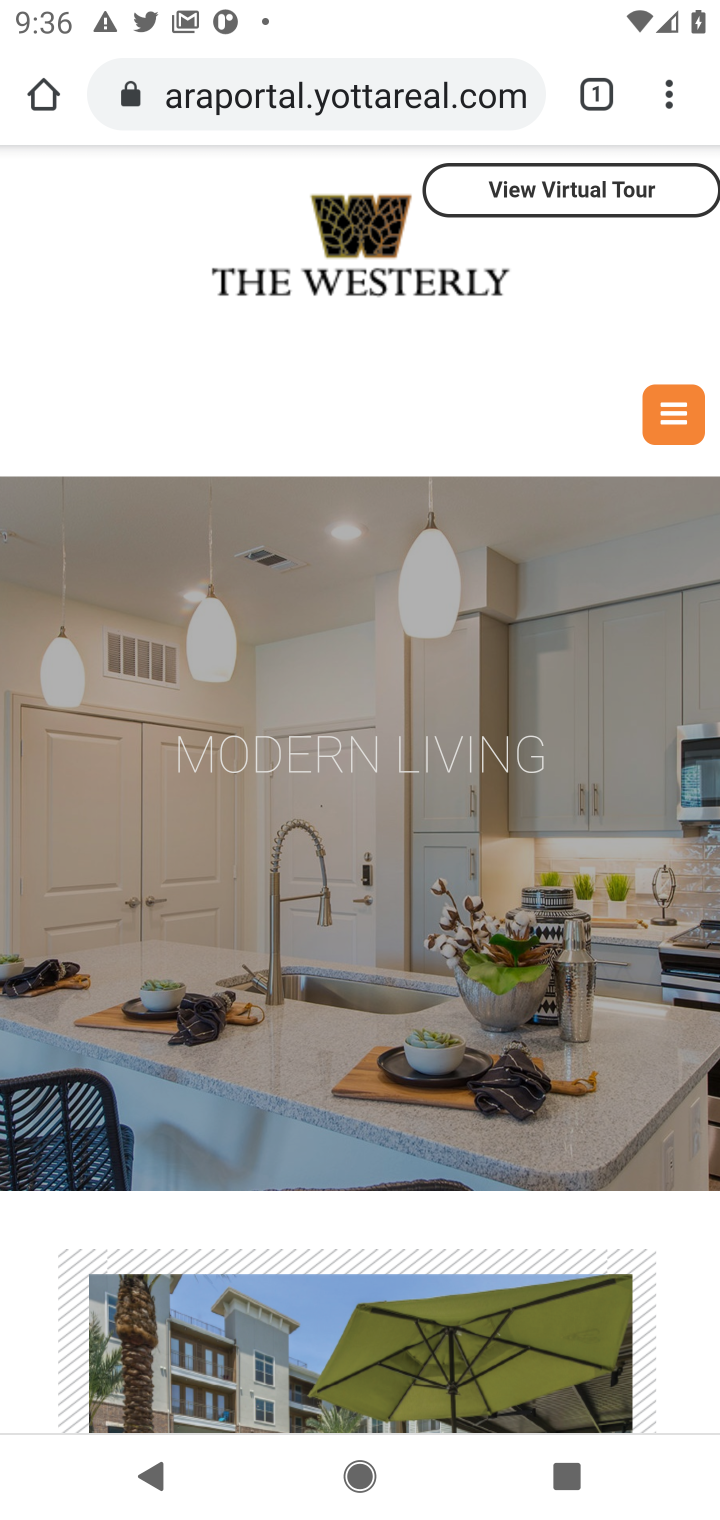
Step 28: drag from (450, 943) to (457, 564)
Your task to perform on an android device: How much does a 2 bedroom apartment rent for in Houston? Image 29: 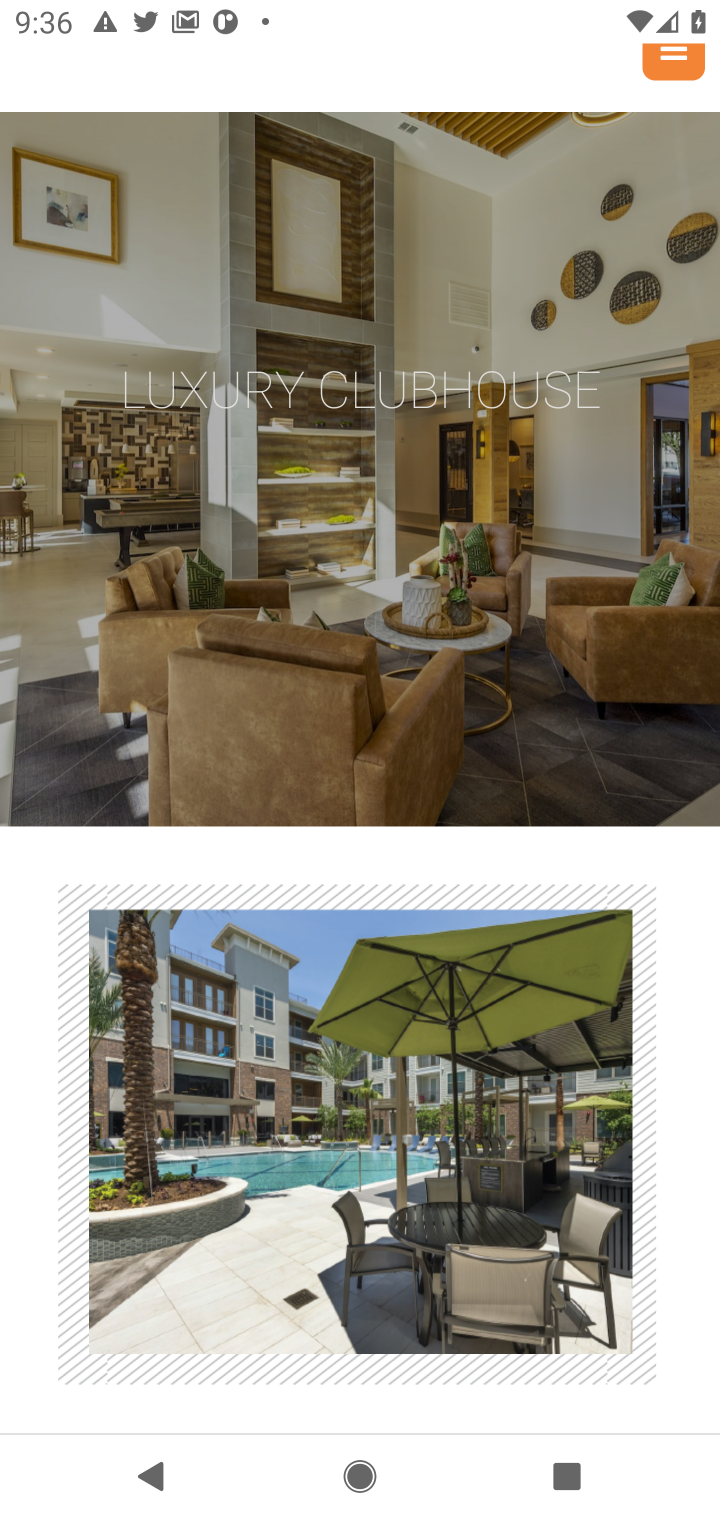
Step 29: drag from (290, 656) to (305, 567)
Your task to perform on an android device: How much does a 2 bedroom apartment rent for in Houston? Image 30: 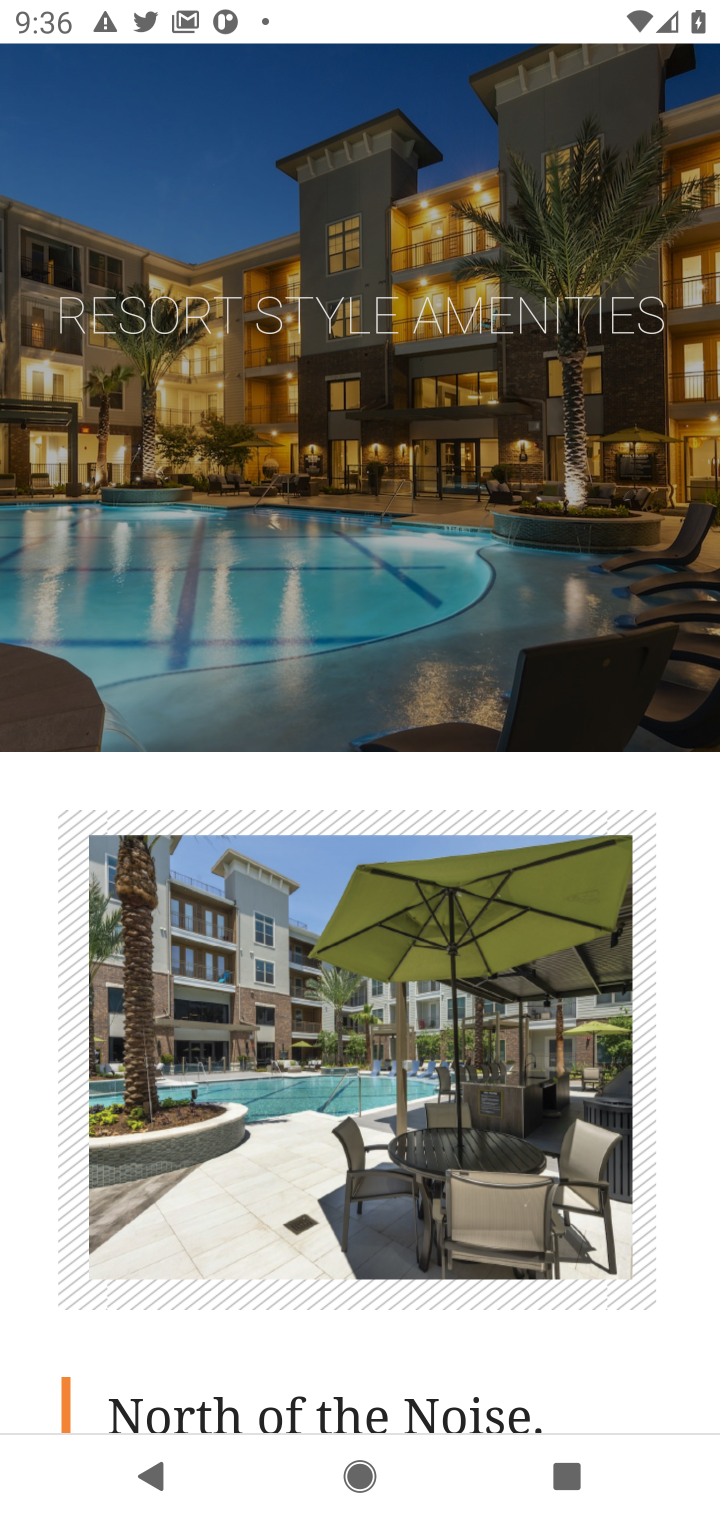
Step 30: drag from (672, 144) to (603, 863)
Your task to perform on an android device: How much does a 2 bedroom apartment rent for in Houston? Image 31: 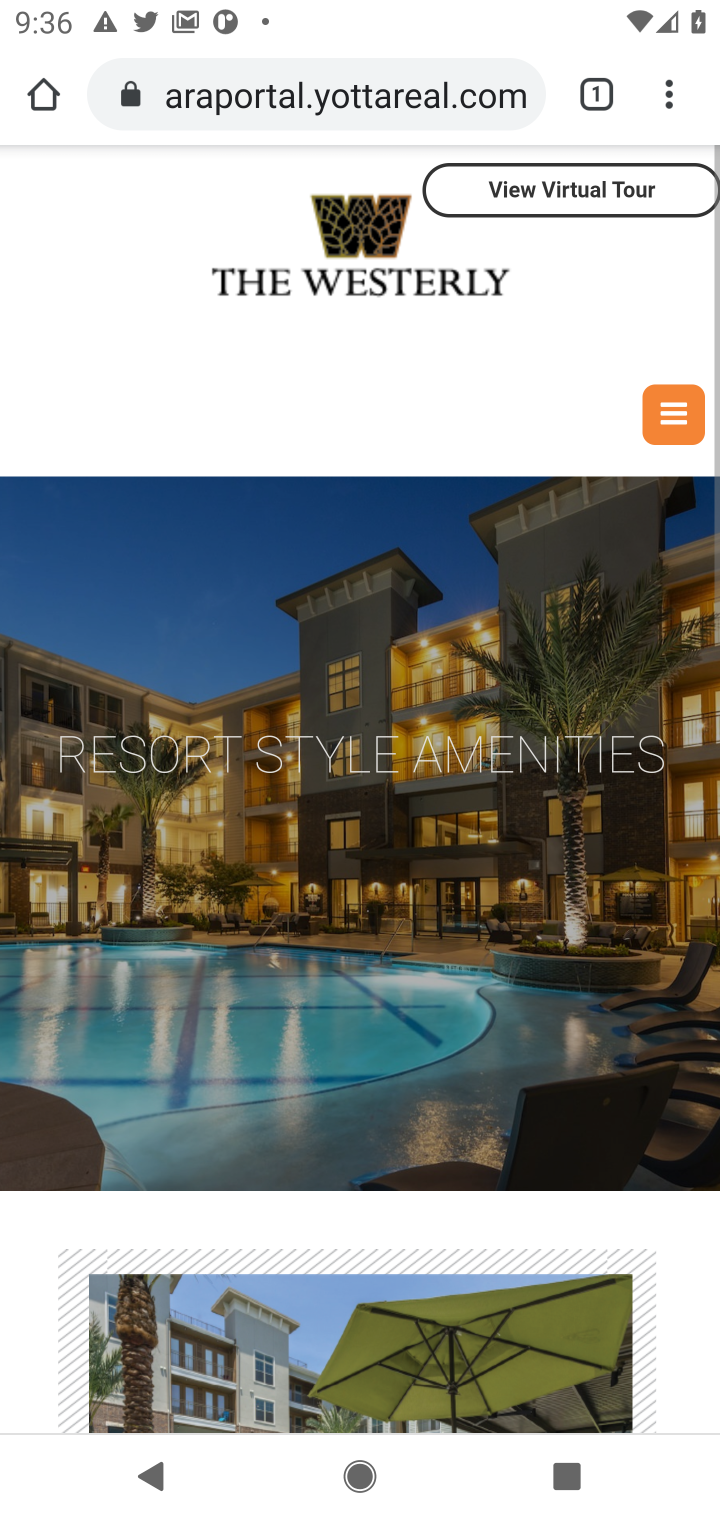
Step 31: drag from (539, 457) to (477, 947)
Your task to perform on an android device: How much does a 2 bedroom apartment rent for in Houston? Image 32: 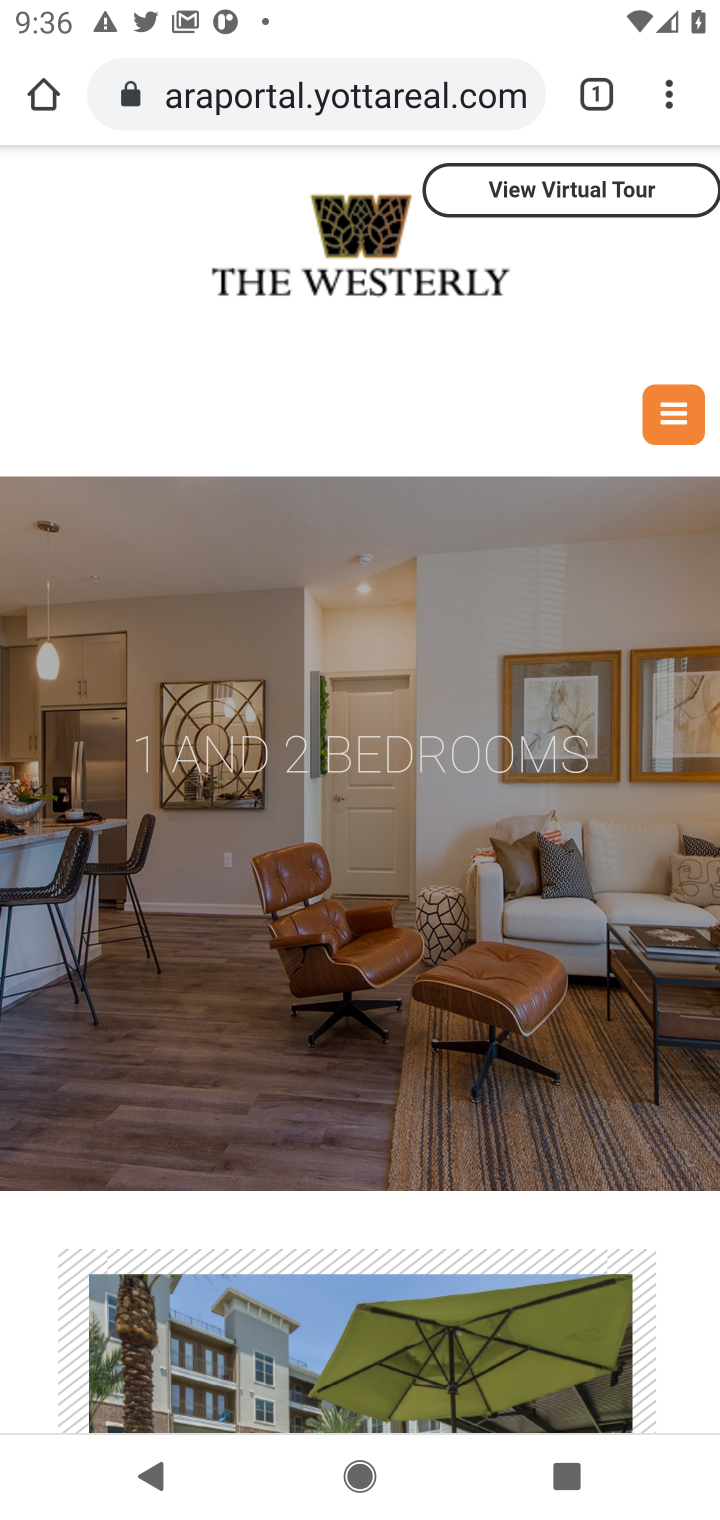
Step 32: click (664, 415)
Your task to perform on an android device: How much does a 2 bedroom apartment rent for in Houston? Image 33: 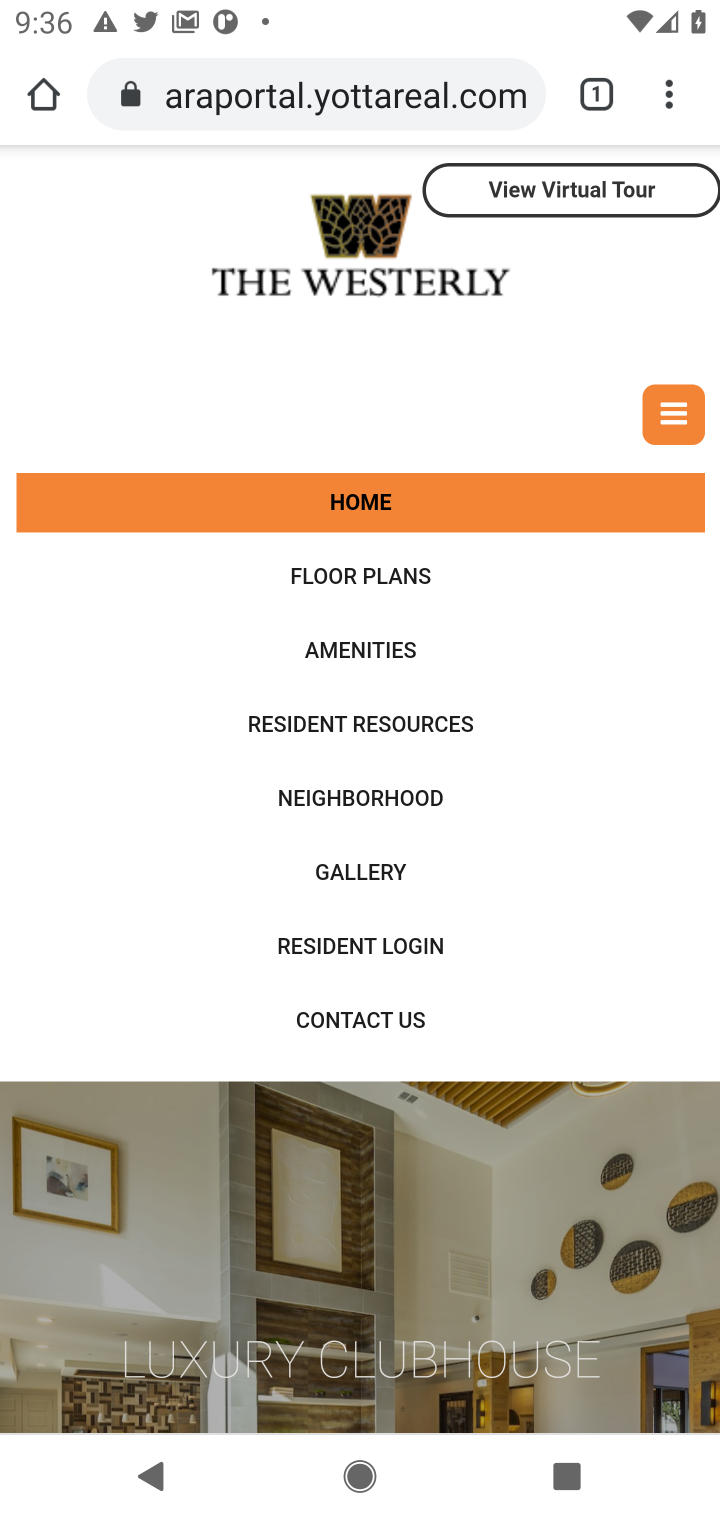
Step 33: press back button
Your task to perform on an android device: How much does a 2 bedroom apartment rent for in Houston? Image 34: 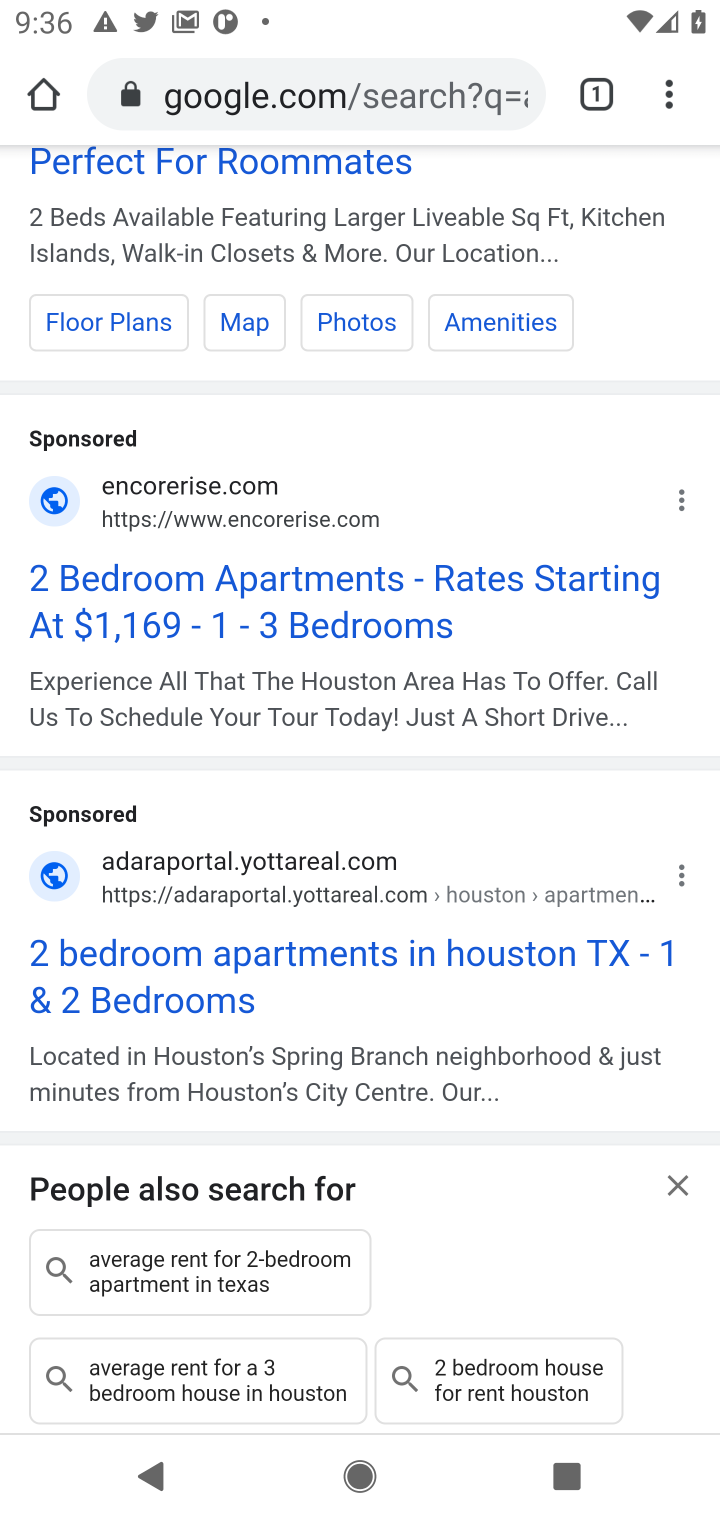
Step 34: click (336, 579)
Your task to perform on an android device: How much does a 2 bedroom apartment rent for in Houston? Image 35: 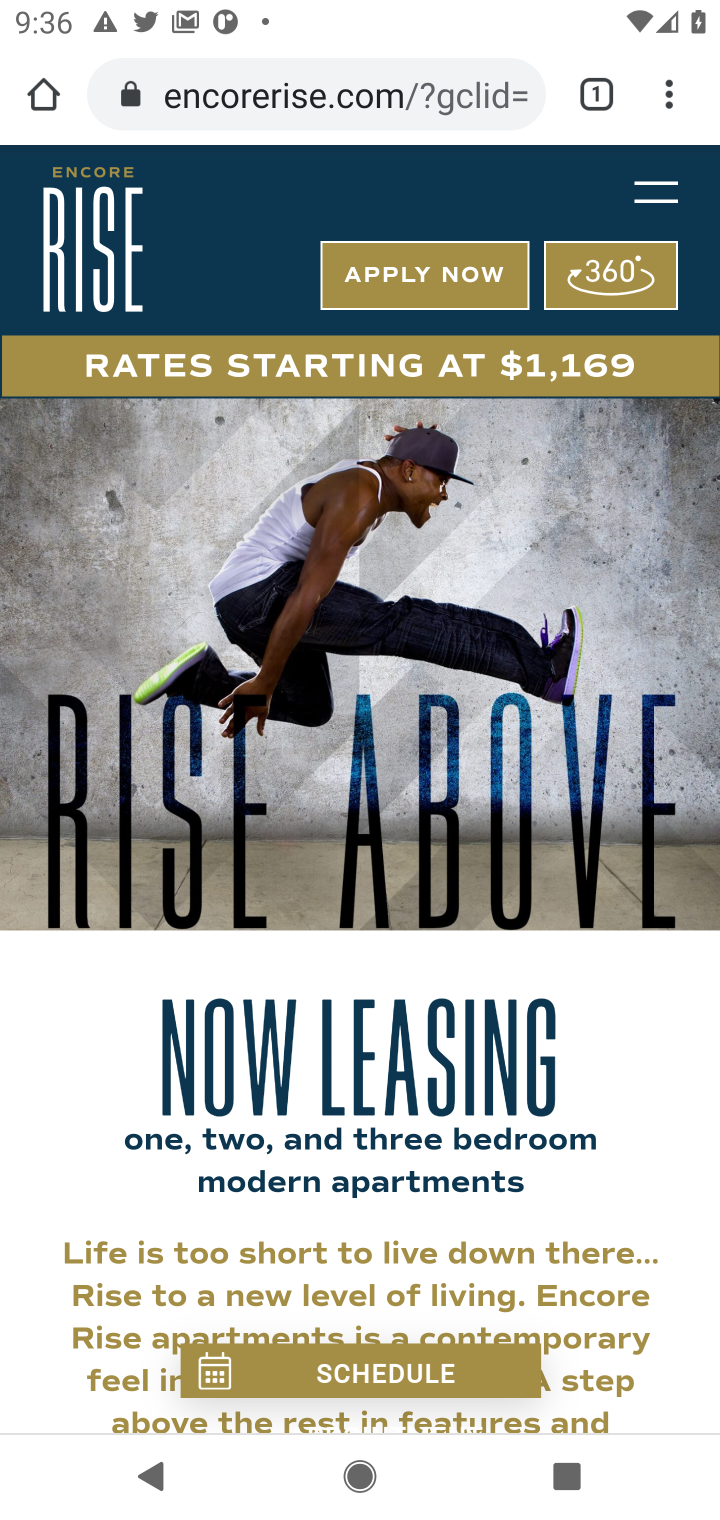
Step 35: drag from (336, 1154) to (336, 624)
Your task to perform on an android device: How much does a 2 bedroom apartment rent for in Houston? Image 36: 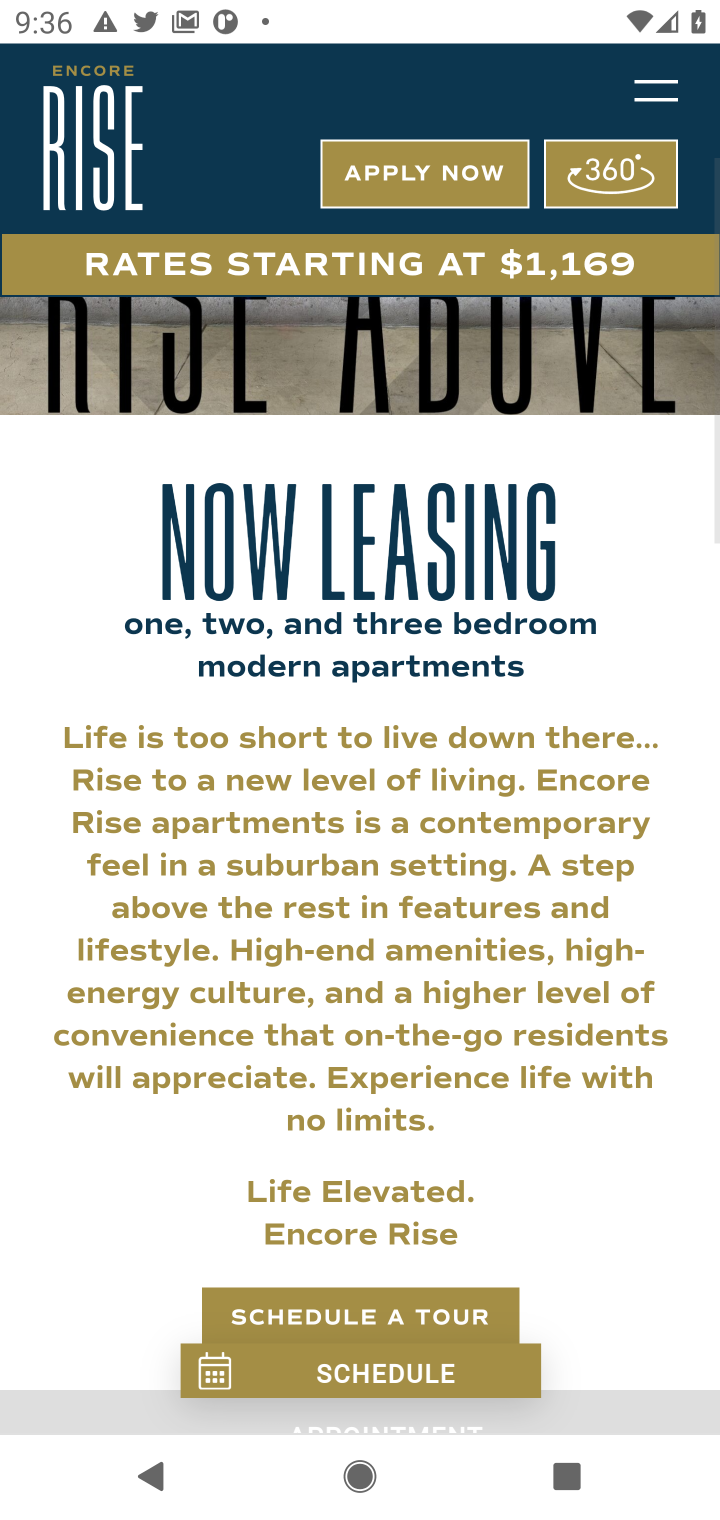
Step 36: drag from (466, 1249) to (460, 685)
Your task to perform on an android device: How much does a 2 bedroom apartment rent for in Houston? Image 37: 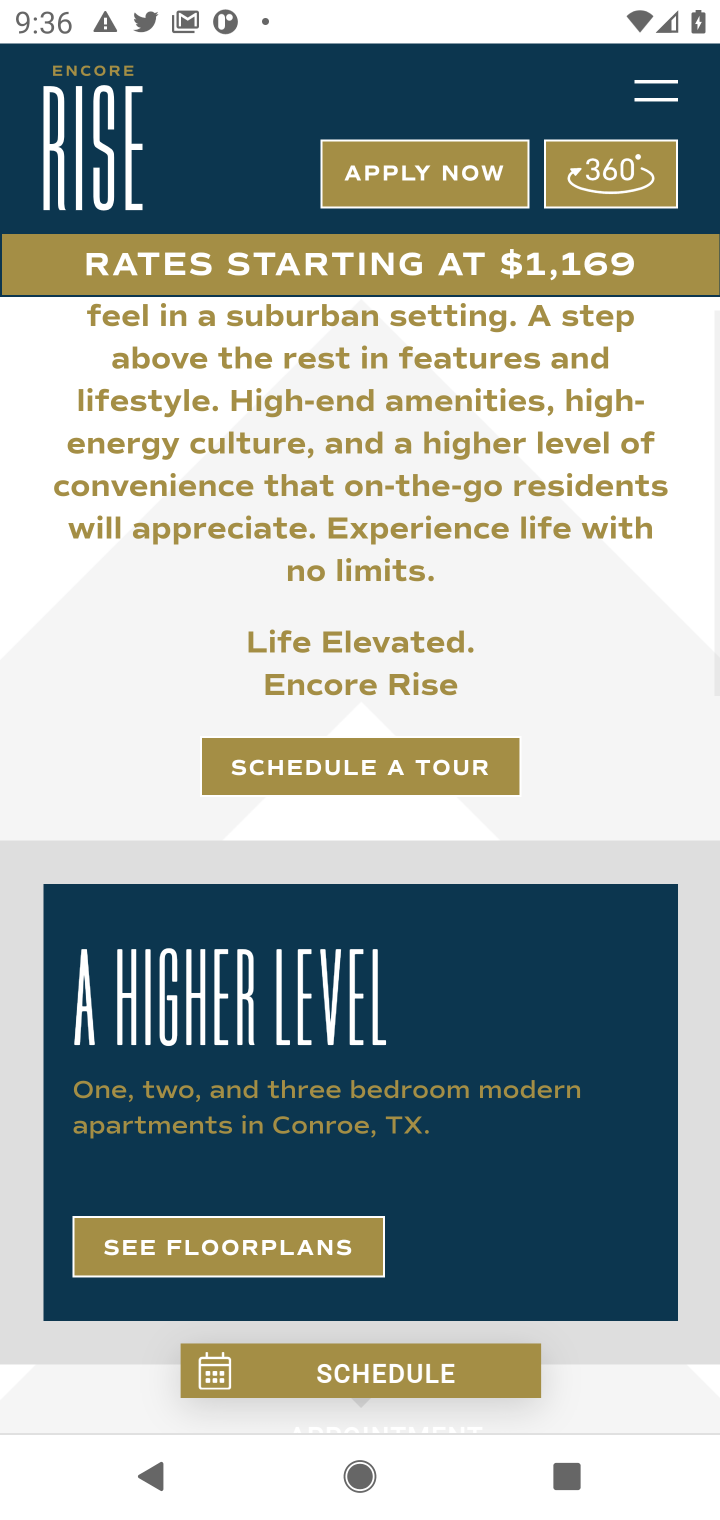
Step 37: drag from (592, 904) to (592, 593)
Your task to perform on an android device: How much does a 2 bedroom apartment rent for in Houston? Image 38: 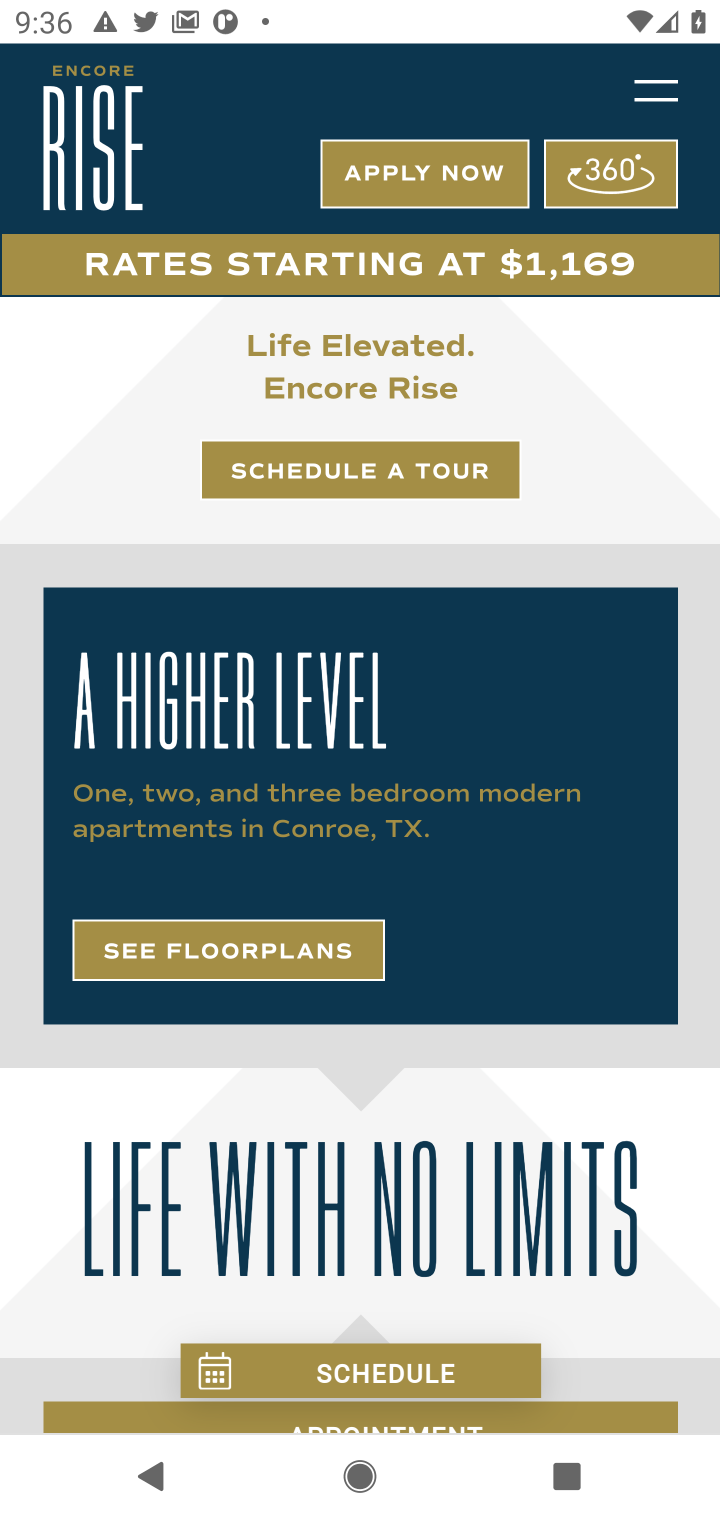
Step 38: drag from (575, 632) to (527, 1251)
Your task to perform on an android device: How much does a 2 bedroom apartment rent for in Houston? Image 39: 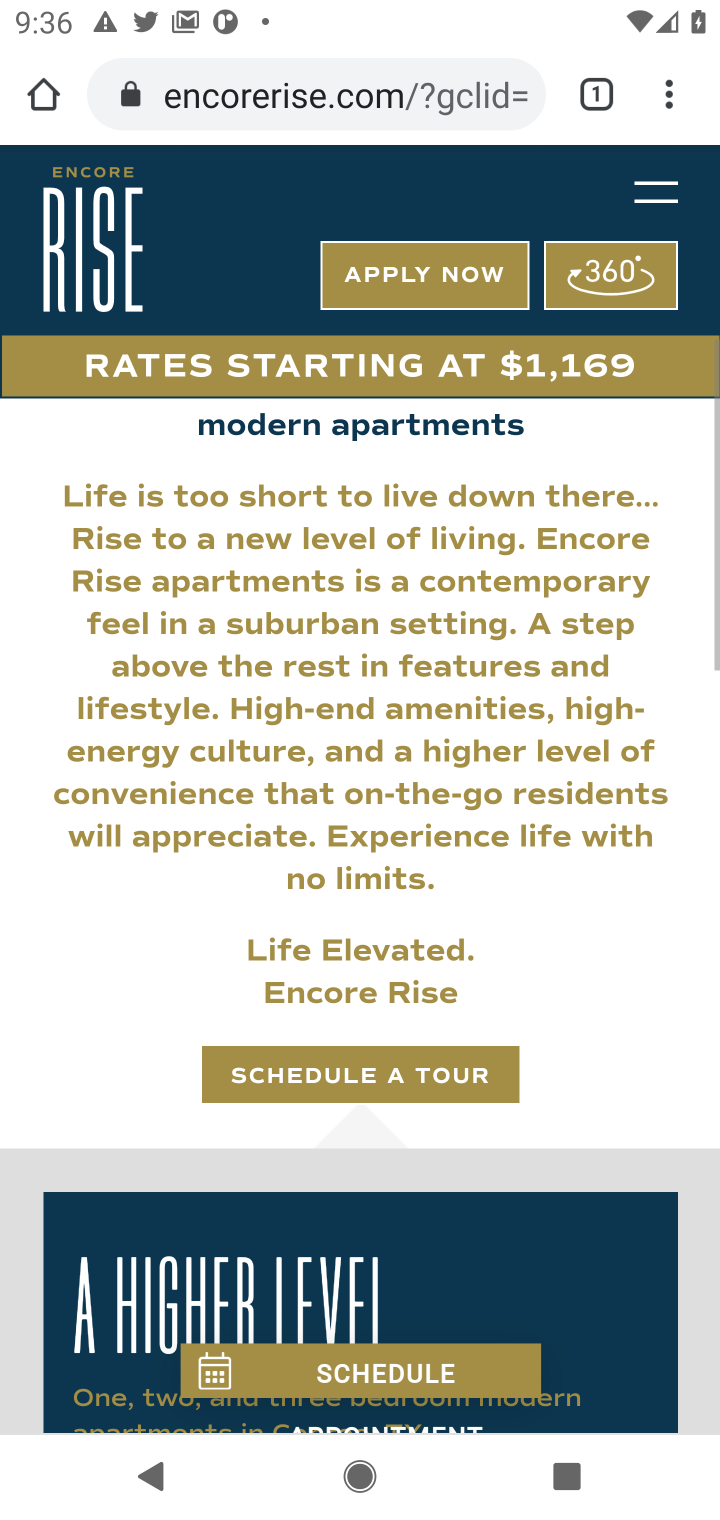
Step 39: drag from (589, 428) to (598, 1280)
Your task to perform on an android device: How much does a 2 bedroom apartment rent for in Houston? Image 40: 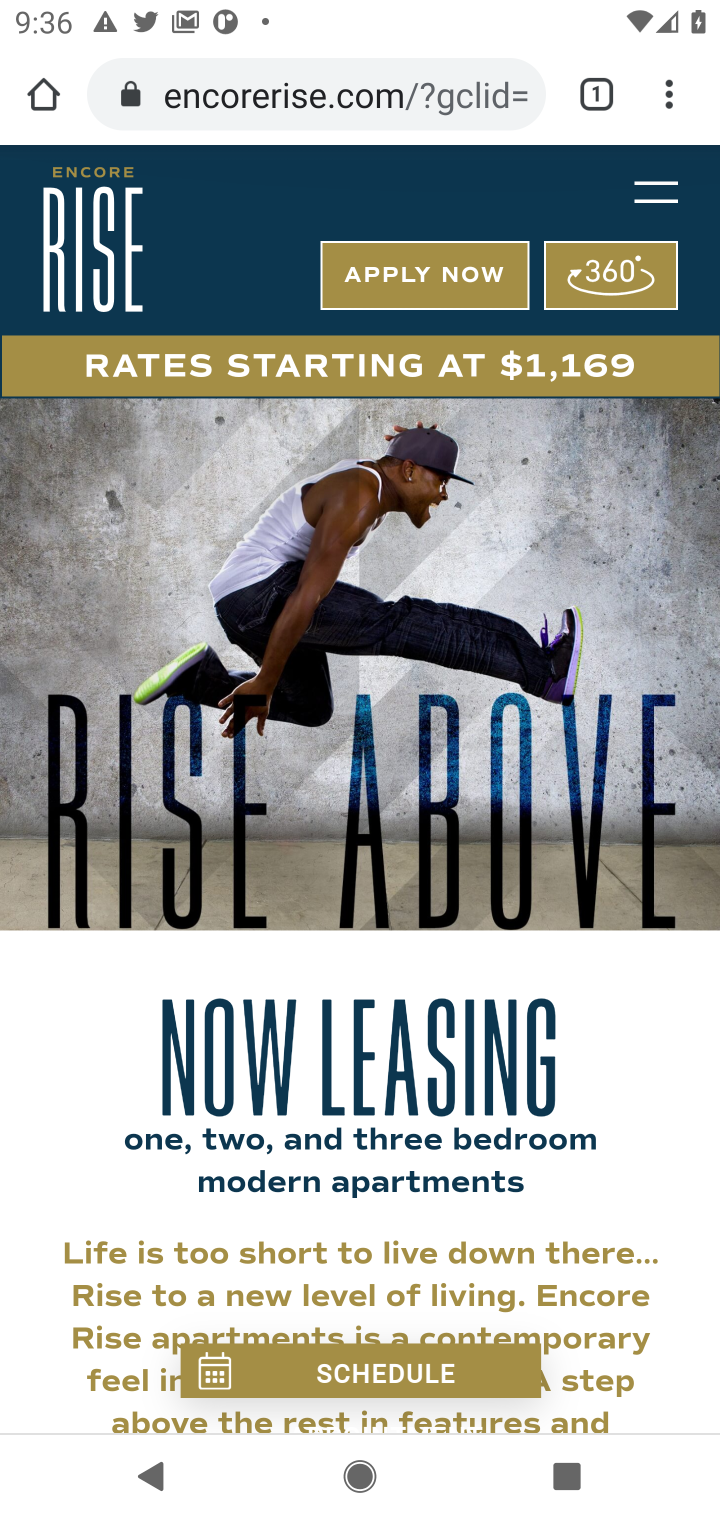
Step 40: click (424, 293)
Your task to perform on an android device: How much does a 2 bedroom apartment rent for in Houston? Image 41: 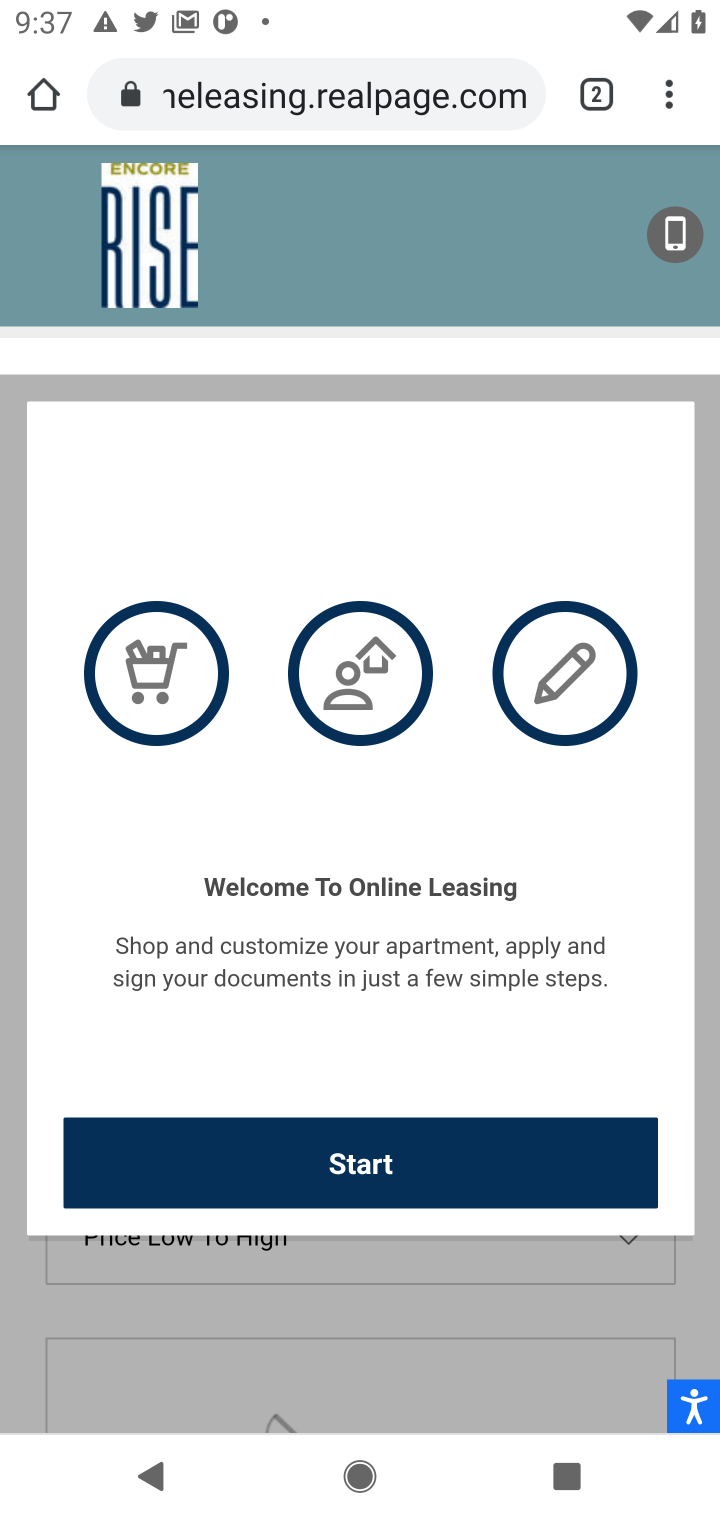
Step 41: task complete